Your task to perform on an android device: What's the latest video from GameSpot eSports? Image 0: 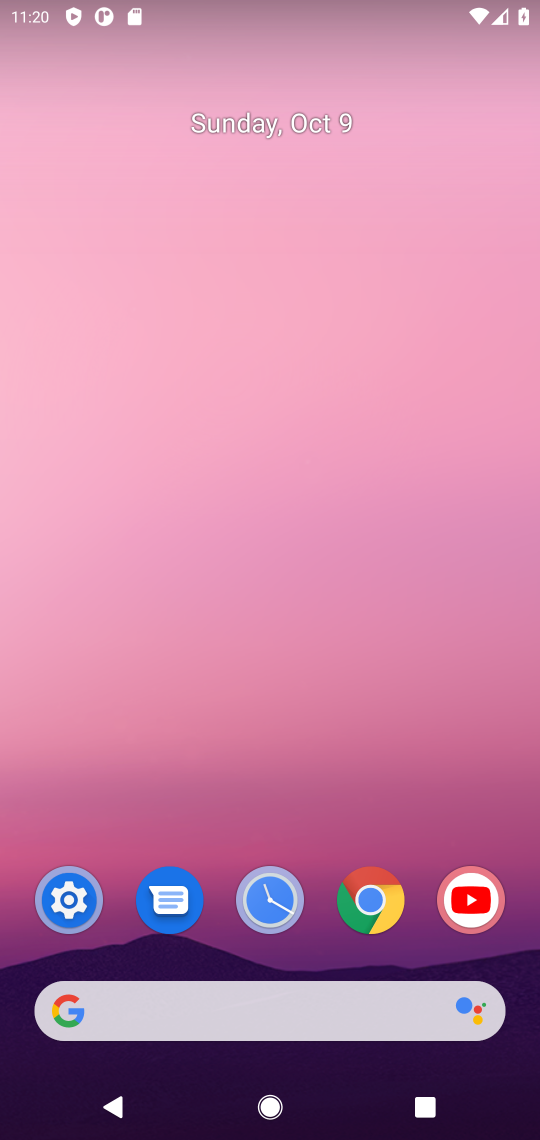
Step 0: click (279, 1007)
Your task to perform on an android device: What's the latest video from GameSpot eSports? Image 1: 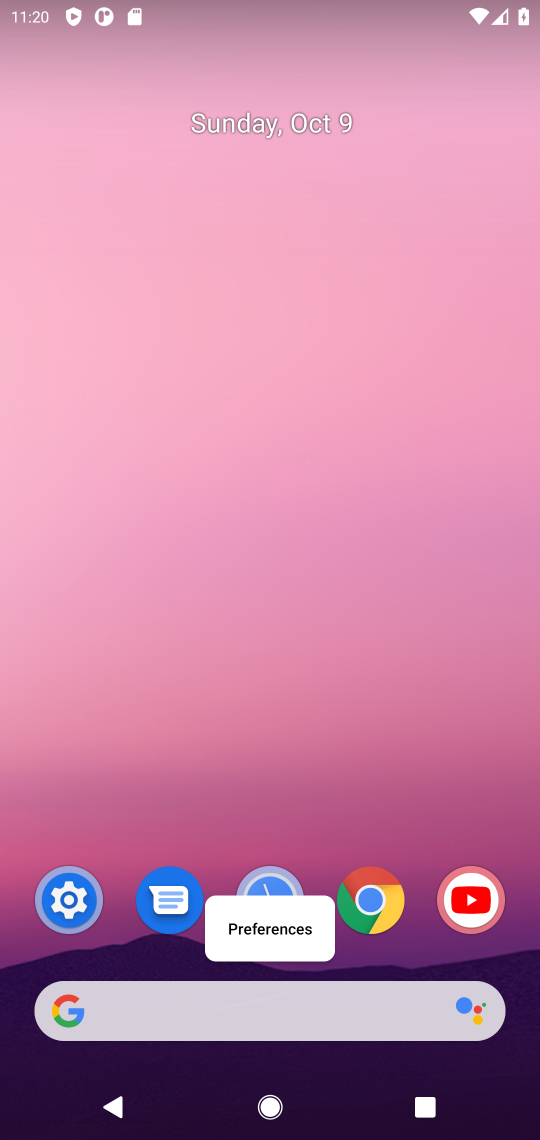
Step 1: click (150, 1015)
Your task to perform on an android device: What's the latest video from GameSpot eSports? Image 2: 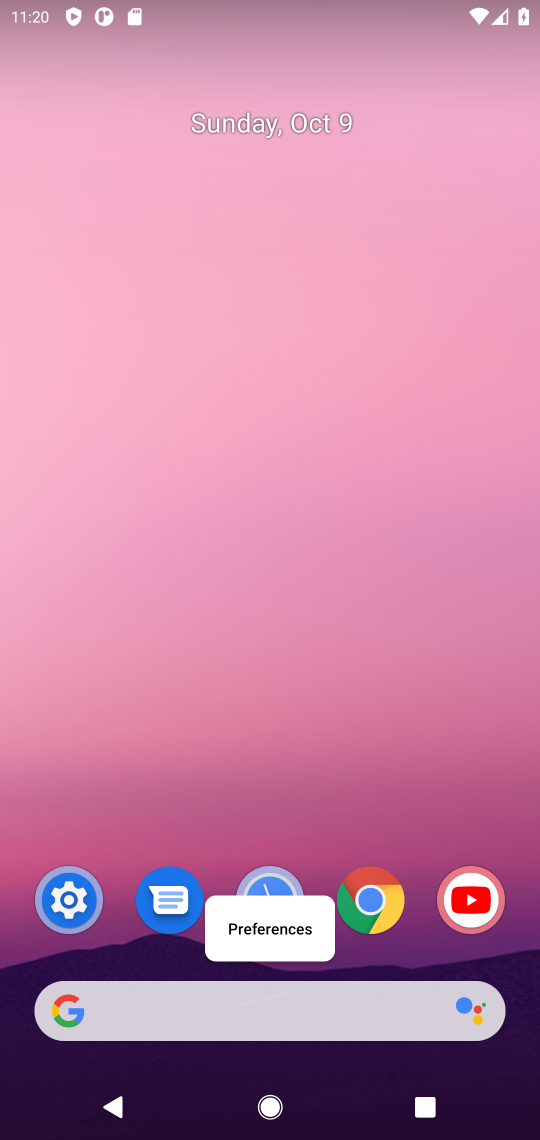
Step 2: click (134, 991)
Your task to perform on an android device: What's the latest video from GameSpot eSports? Image 3: 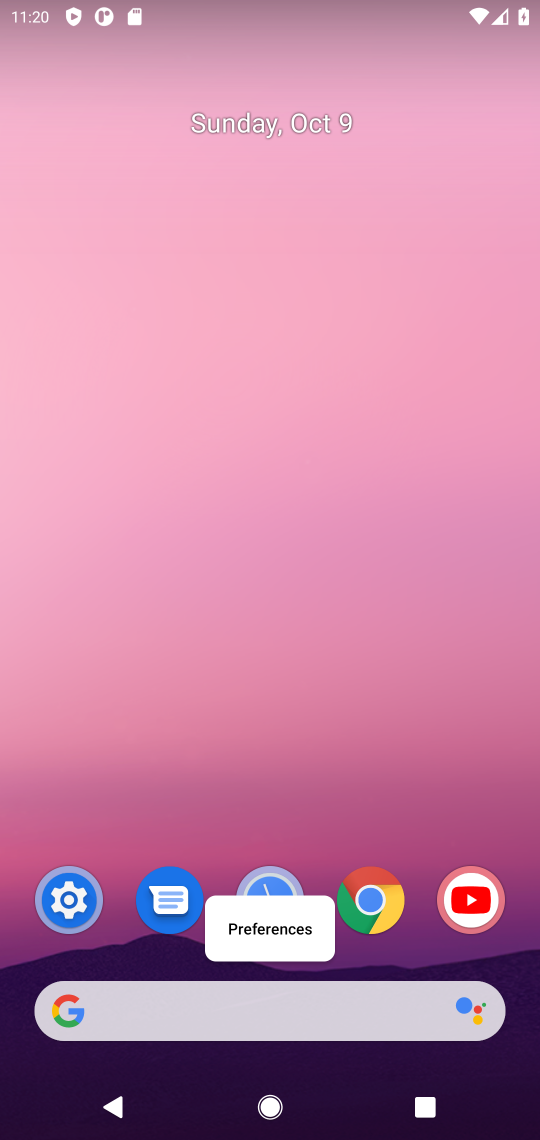
Step 3: click (383, 901)
Your task to perform on an android device: What's the latest video from GameSpot eSports? Image 4: 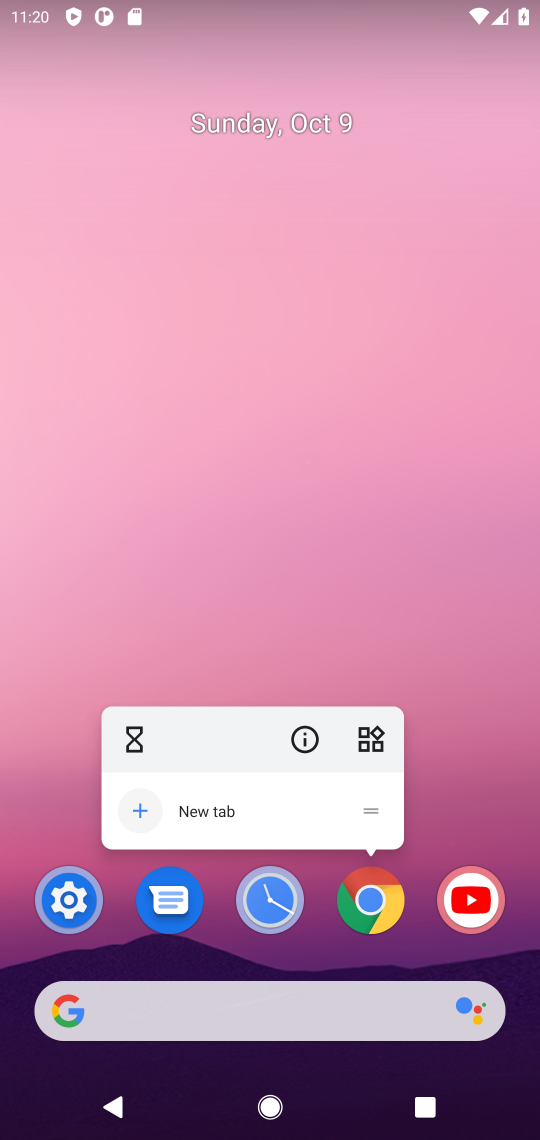
Step 4: click (486, 491)
Your task to perform on an android device: What's the latest video from GameSpot eSports? Image 5: 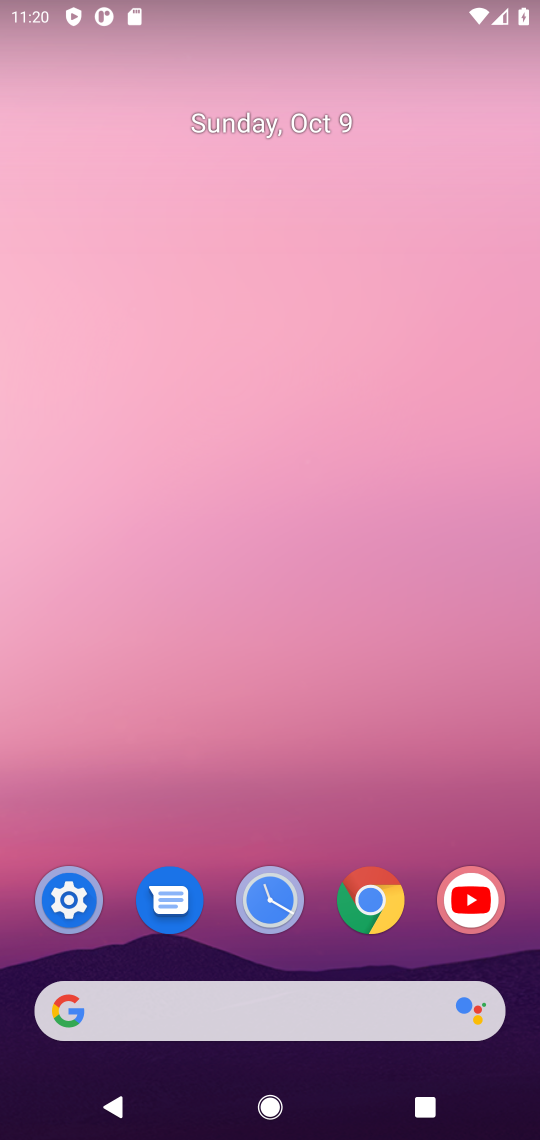
Step 5: click (362, 928)
Your task to perform on an android device: What's the latest video from GameSpot eSports? Image 6: 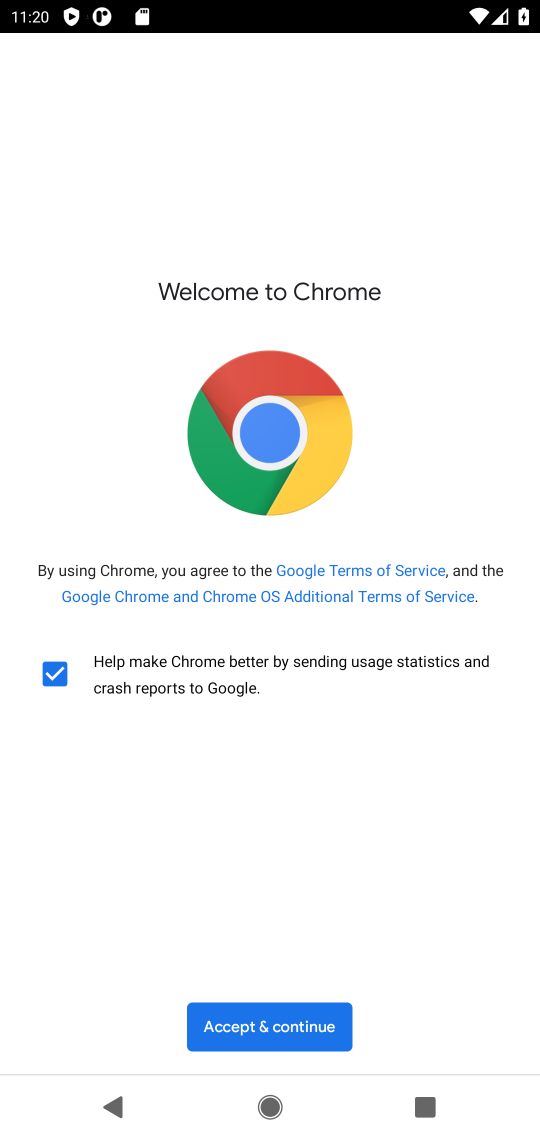
Step 6: click (284, 1018)
Your task to perform on an android device: What's the latest video from GameSpot eSports? Image 7: 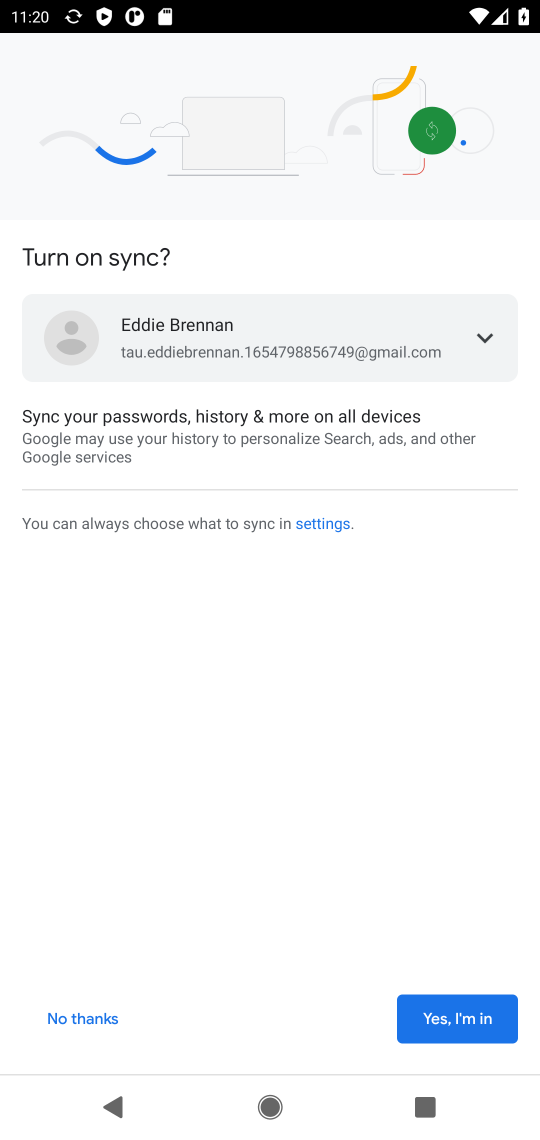
Step 7: click (449, 1012)
Your task to perform on an android device: What's the latest video from GameSpot eSports? Image 8: 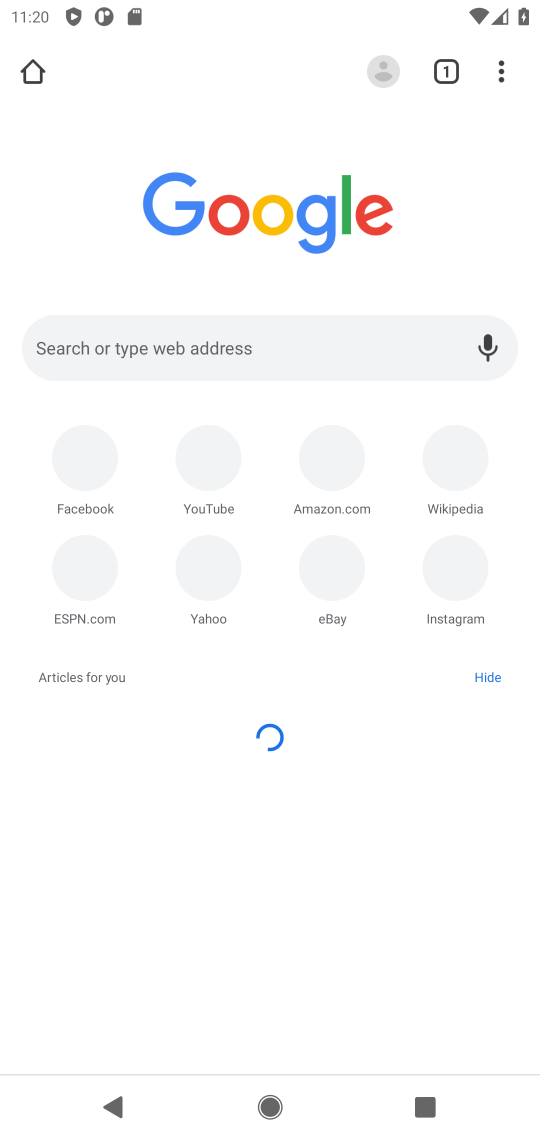
Step 8: click (297, 330)
Your task to perform on an android device: What's the latest video from GameSpot eSports? Image 9: 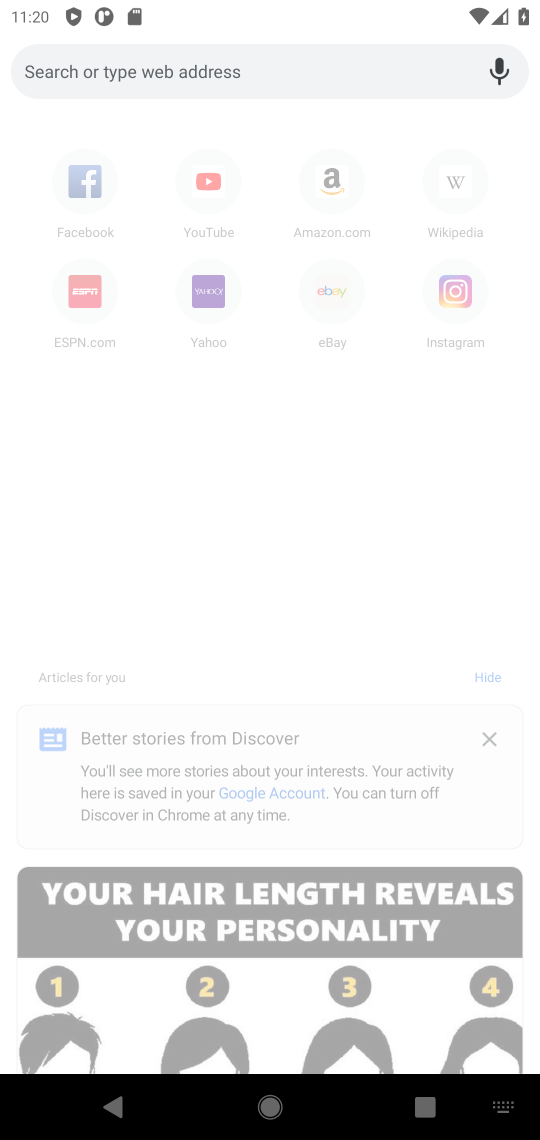
Step 9: type "What's the latest video from GameSpot eSports?"
Your task to perform on an android device: What's the latest video from GameSpot eSports? Image 10: 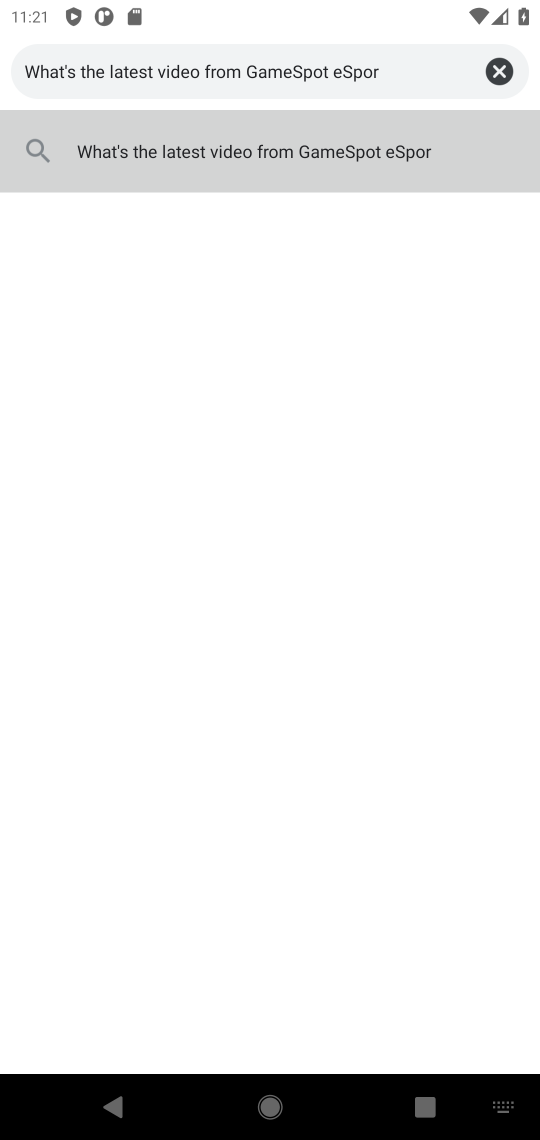
Step 10: type ""
Your task to perform on an android device: What's the latest video from GameSpot eSports? Image 11: 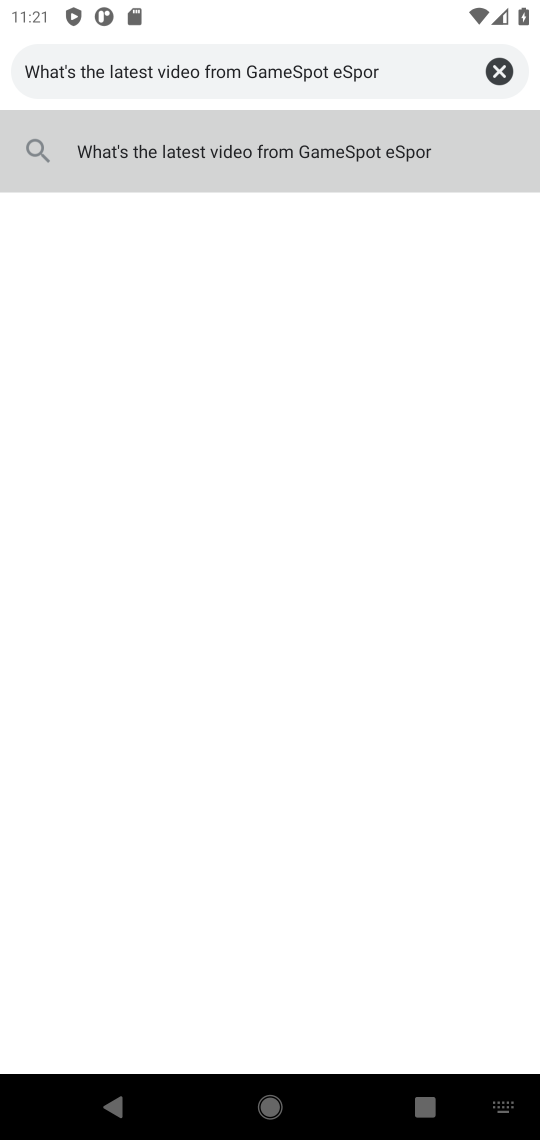
Step 11: click (426, 172)
Your task to perform on an android device: What's the latest video from GameSpot eSports? Image 12: 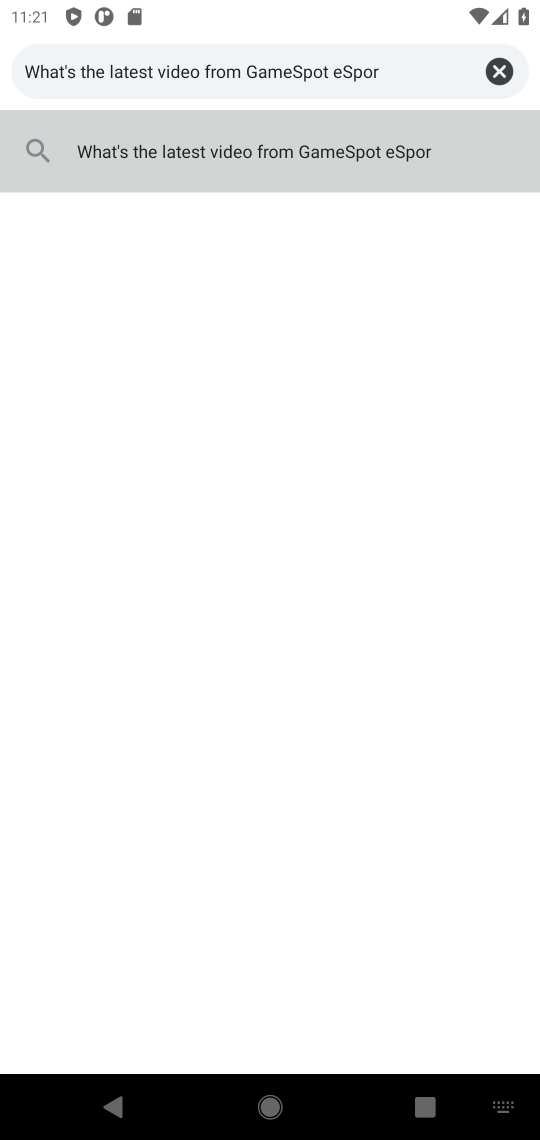
Step 12: click (409, 149)
Your task to perform on an android device: What's the latest video from GameSpot eSports? Image 13: 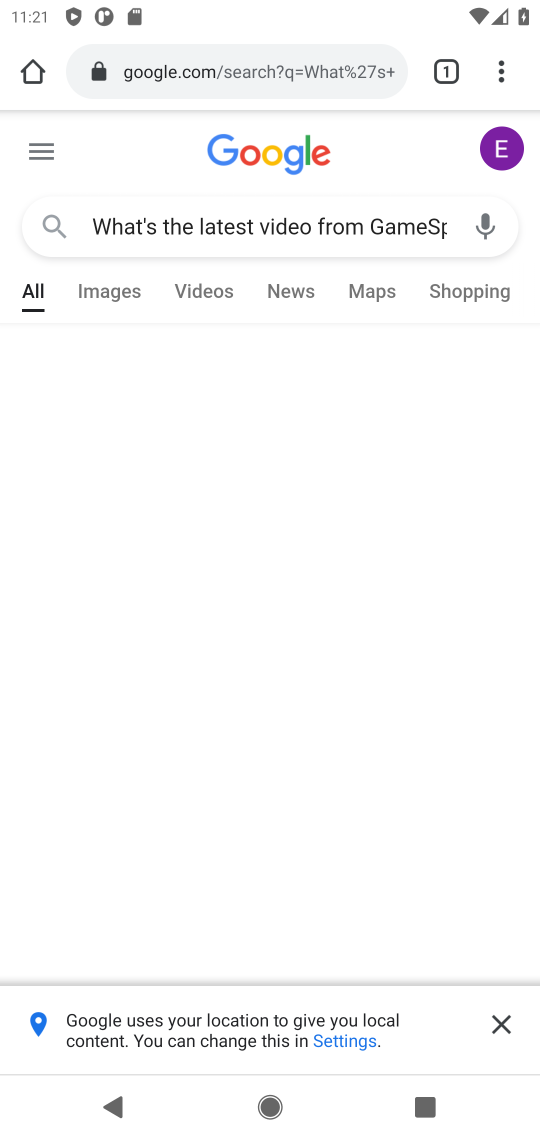
Step 13: click (498, 1013)
Your task to perform on an android device: What's the latest video from GameSpot eSports? Image 14: 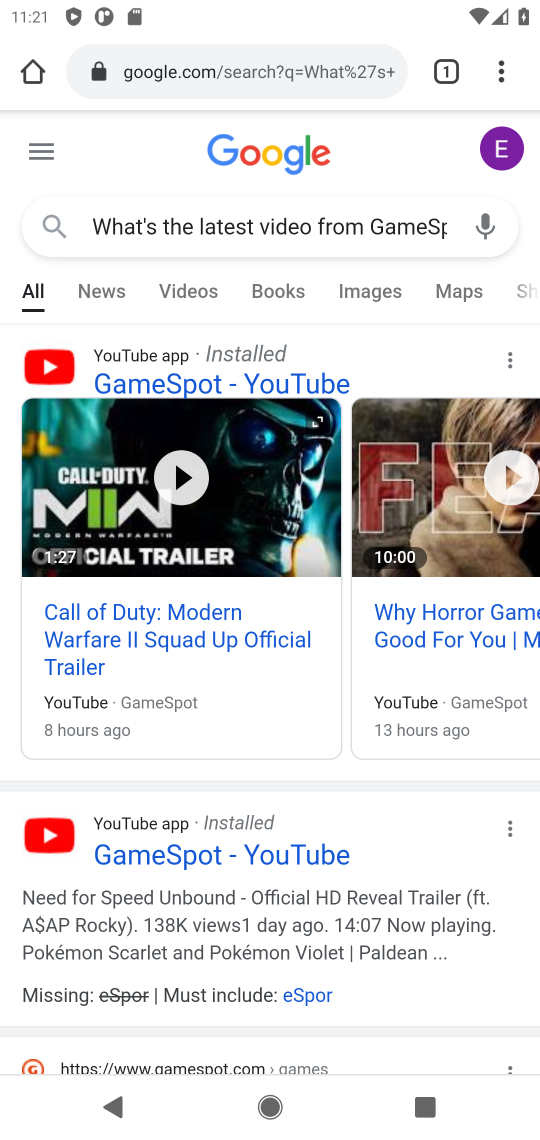
Step 14: click (177, 621)
Your task to perform on an android device: What's the latest video from GameSpot eSports? Image 15: 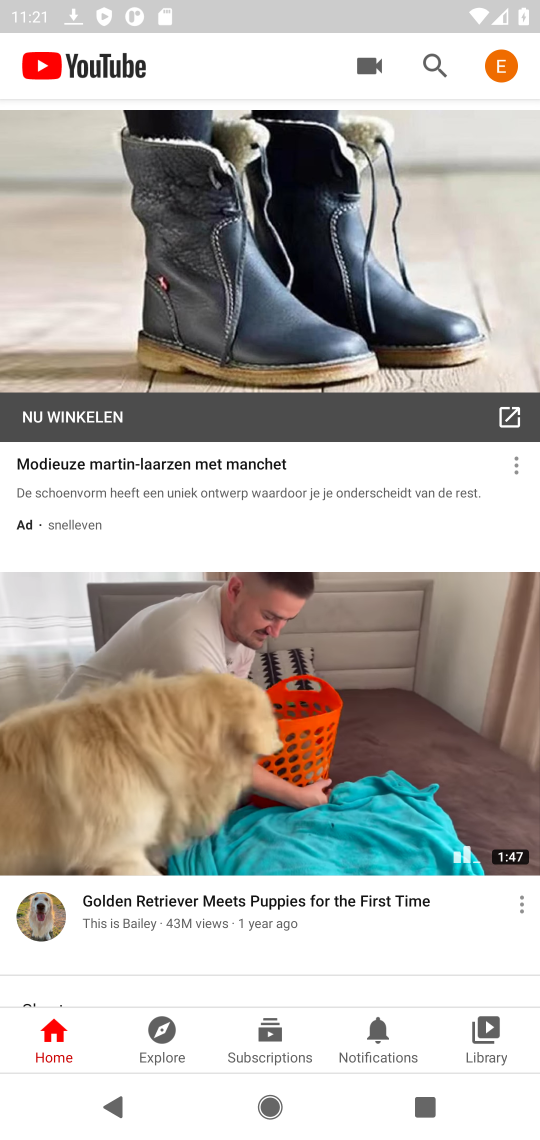
Step 15: press back button
Your task to perform on an android device: What's the latest video from GameSpot eSports? Image 16: 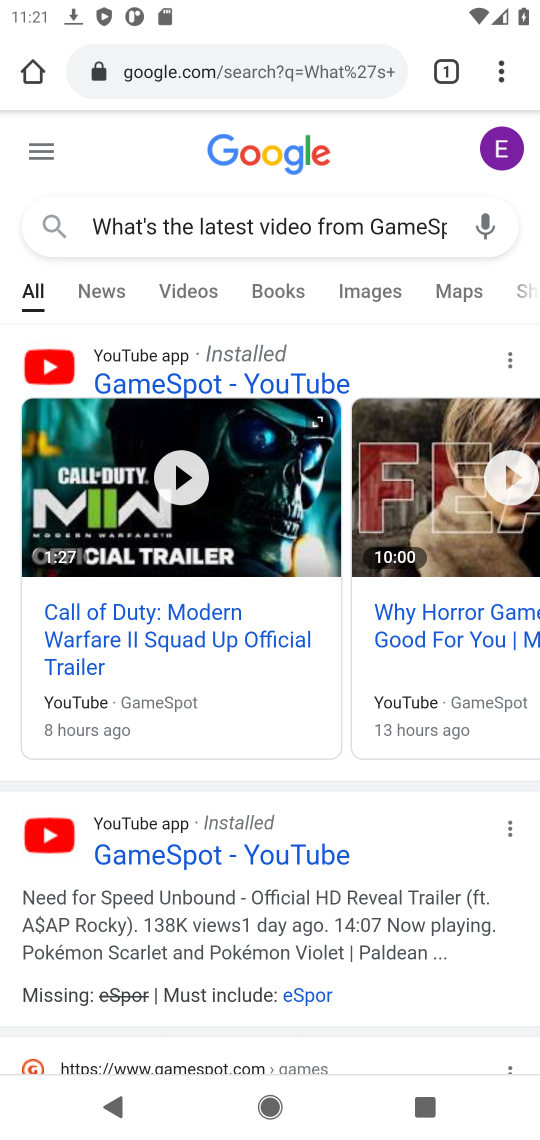
Step 16: click (212, 851)
Your task to perform on an android device: What's the latest video from GameSpot eSports? Image 17: 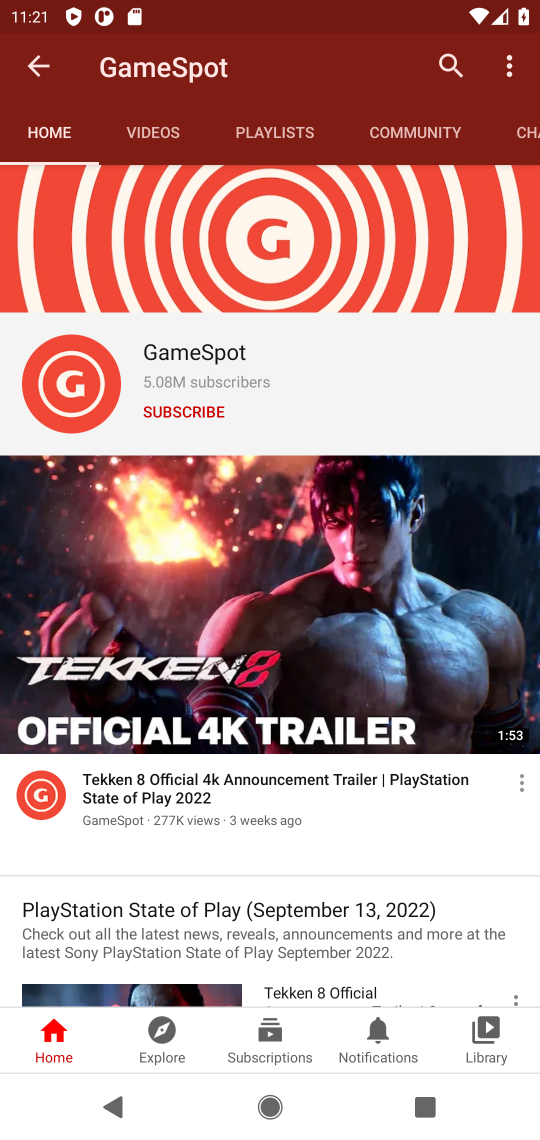
Step 17: drag from (309, 708) to (360, 443)
Your task to perform on an android device: What's the latest video from GameSpot eSports? Image 18: 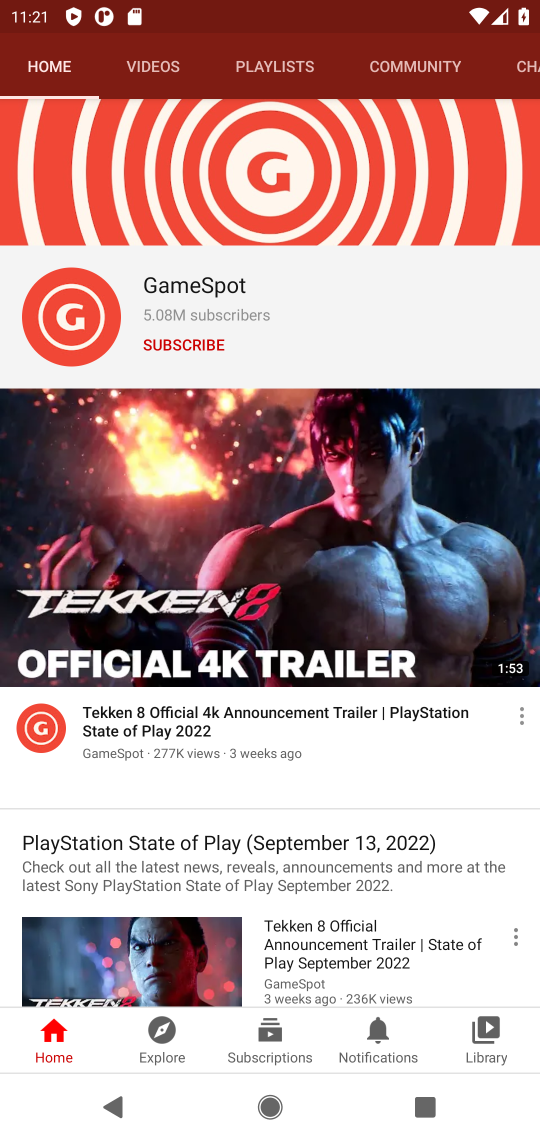
Step 18: drag from (394, 760) to (460, 307)
Your task to perform on an android device: What's the latest video from GameSpot eSports? Image 19: 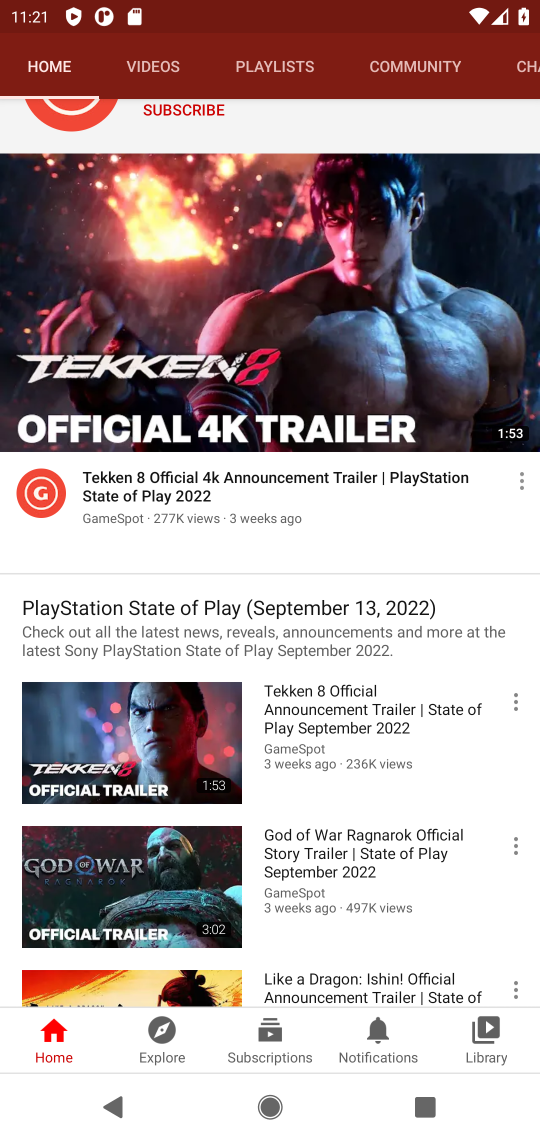
Step 19: click (159, 61)
Your task to perform on an android device: What's the latest video from GameSpot eSports? Image 20: 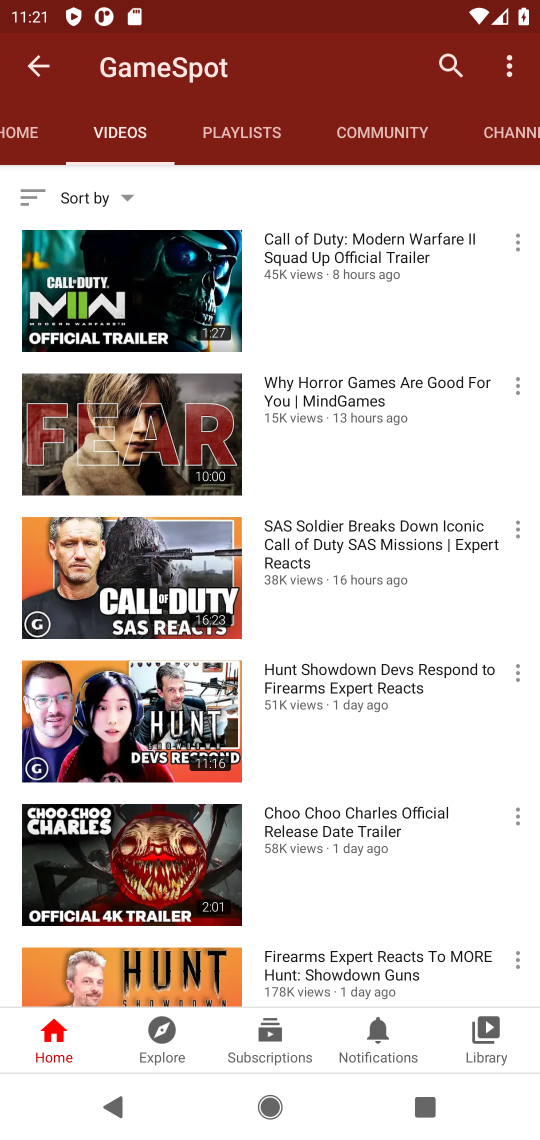
Step 20: click (297, 206)
Your task to perform on an android device: What's the latest video from GameSpot eSports? Image 21: 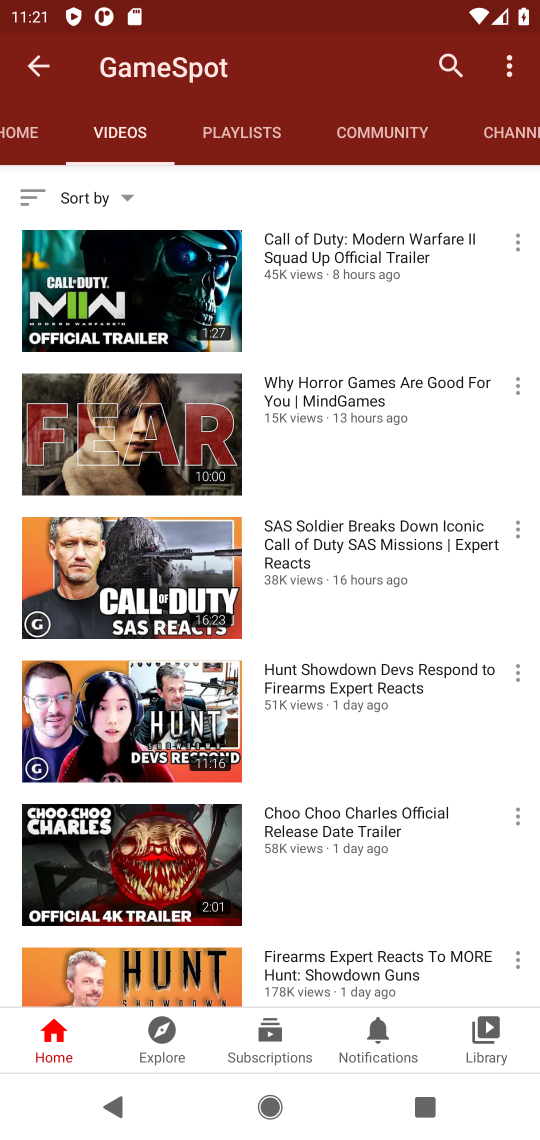
Step 21: click (223, 282)
Your task to perform on an android device: What's the latest video from GameSpot eSports? Image 22: 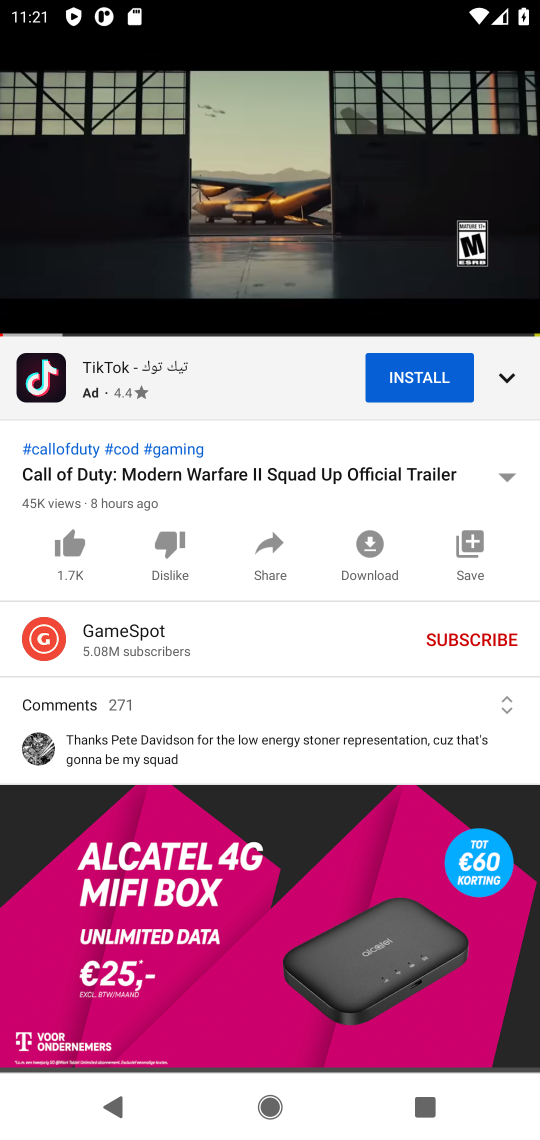
Step 22: click (511, 379)
Your task to perform on an android device: What's the latest video from GameSpot eSports? Image 23: 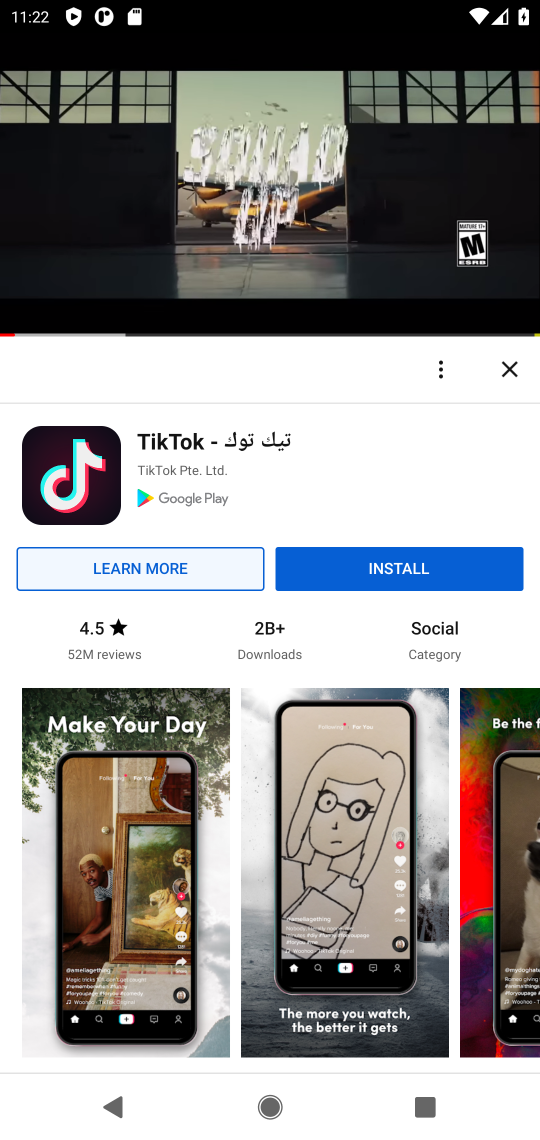
Step 23: click (511, 373)
Your task to perform on an android device: What's the latest video from GameSpot eSports? Image 24: 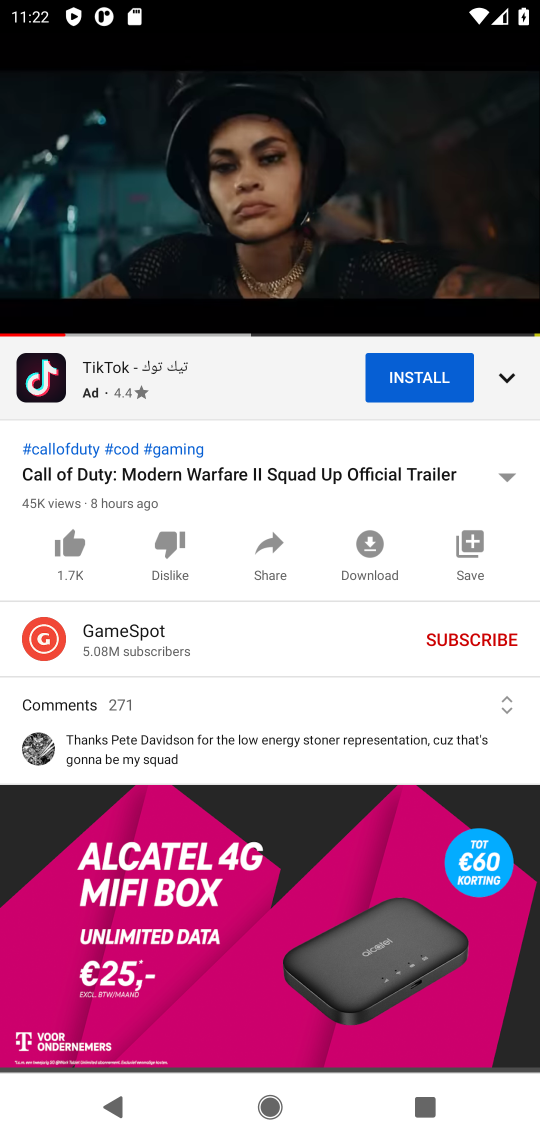
Step 24: drag from (308, 836) to (253, 441)
Your task to perform on an android device: What's the latest video from GameSpot eSports? Image 25: 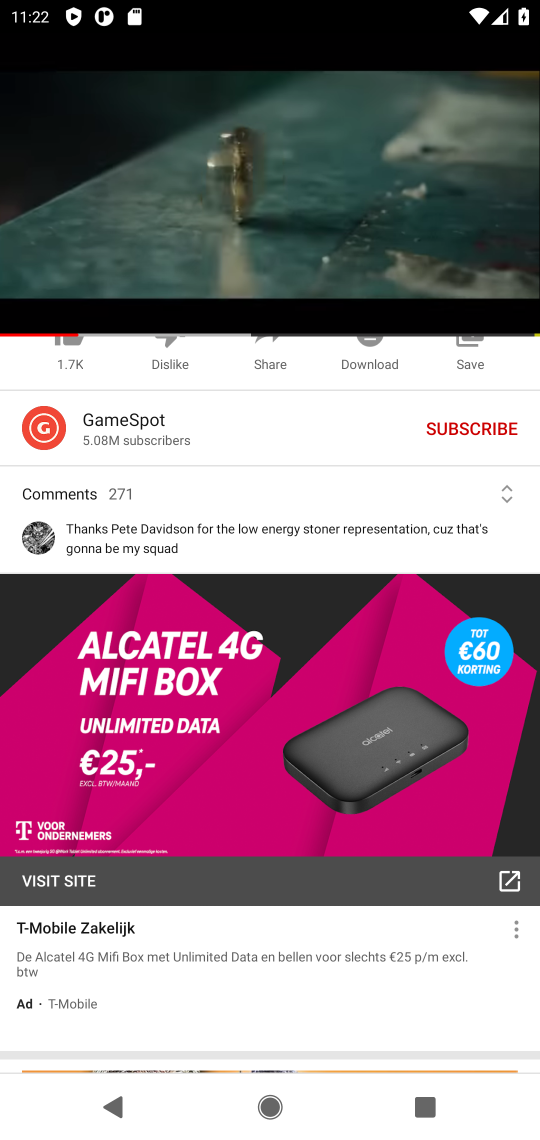
Step 25: drag from (311, 779) to (337, 477)
Your task to perform on an android device: What's the latest video from GameSpot eSports? Image 26: 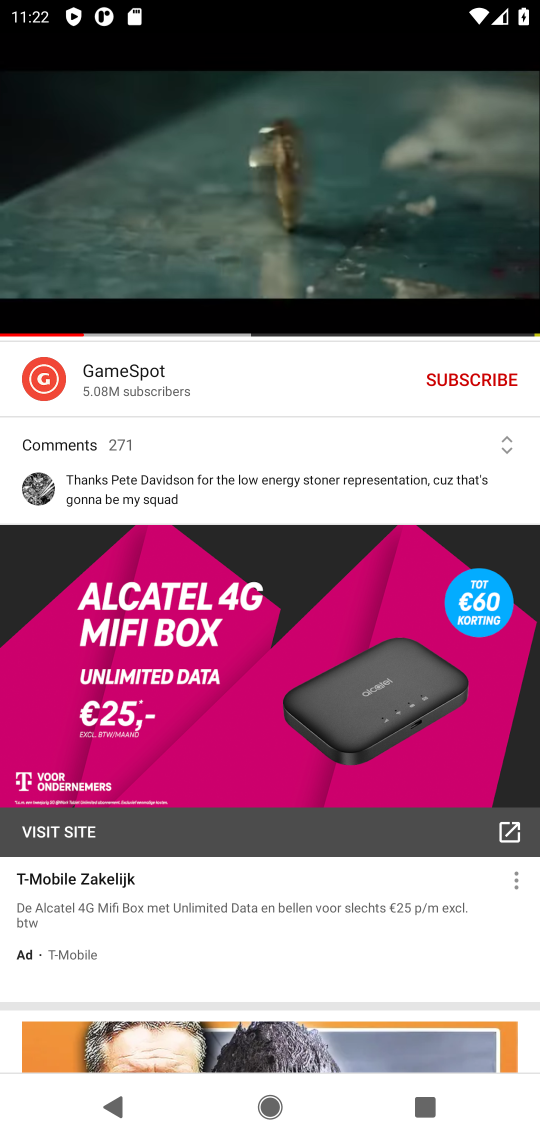
Step 26: drag from (399, 863) to (405, 570)
Your task to perform on an android device: What's the latest video from GameSpot eSports? Image 27: 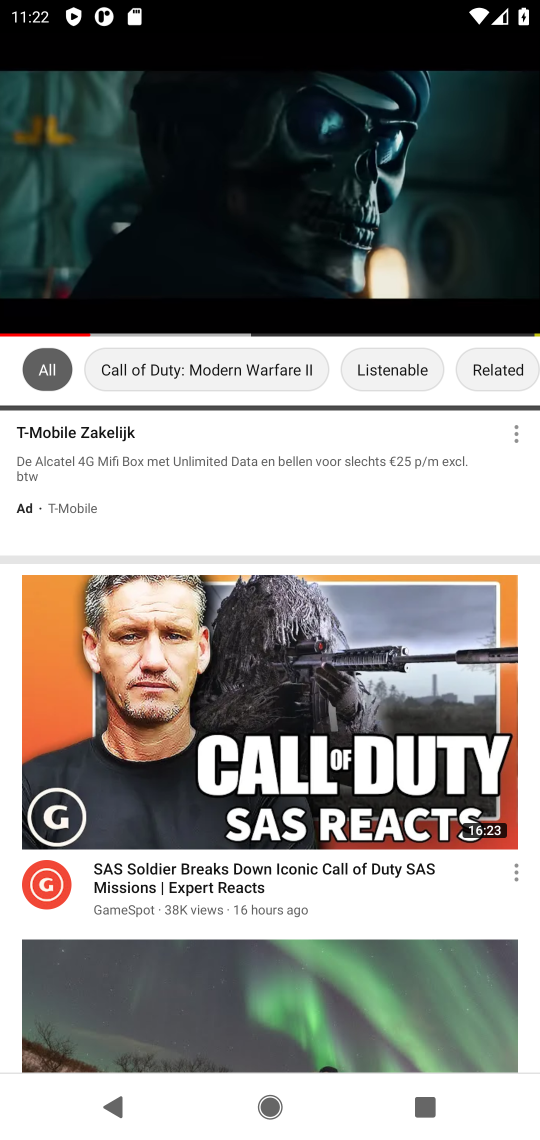
Step 27: drag from (412, 870) to (439, 591)
Your task to perform on an android device: What's the latest video from GameSpot eSports? Image 28: 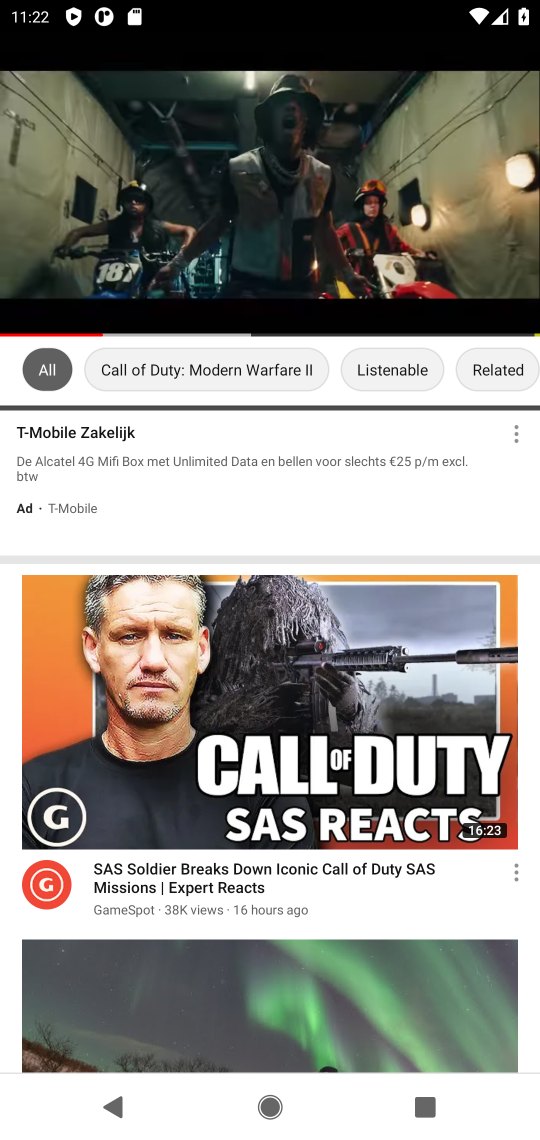
Step 28: drag from (377, 910) to (413, 569)
Your task to perform on an android device: What's the latest video from GameSpot eSports? Image 29: 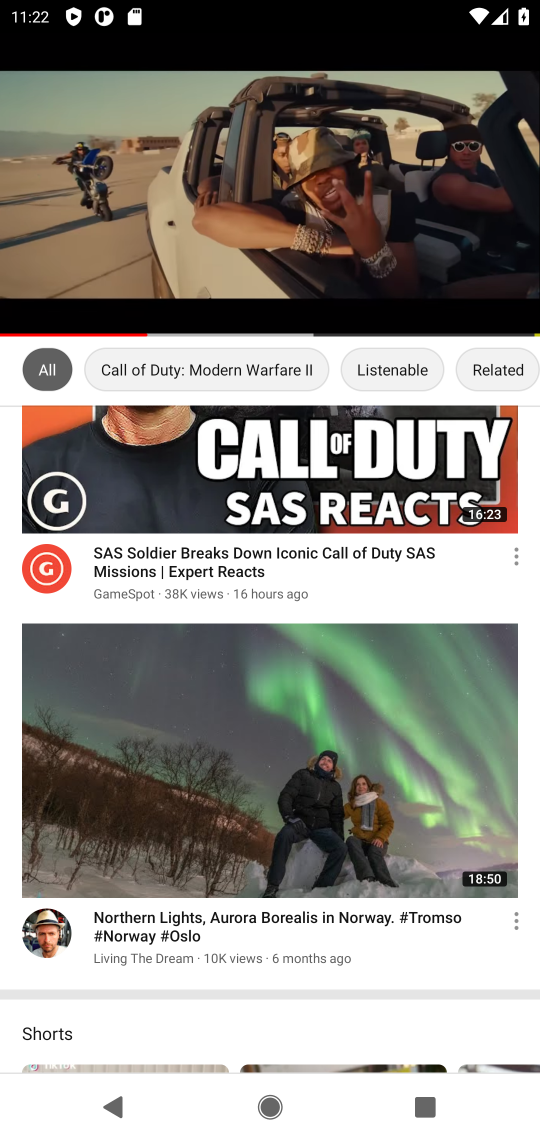
Step 29: drag from (412, 574) to (425, 348)
Your task to perform on an android device: What's the latest video from GameSpot eSports? Image 30: 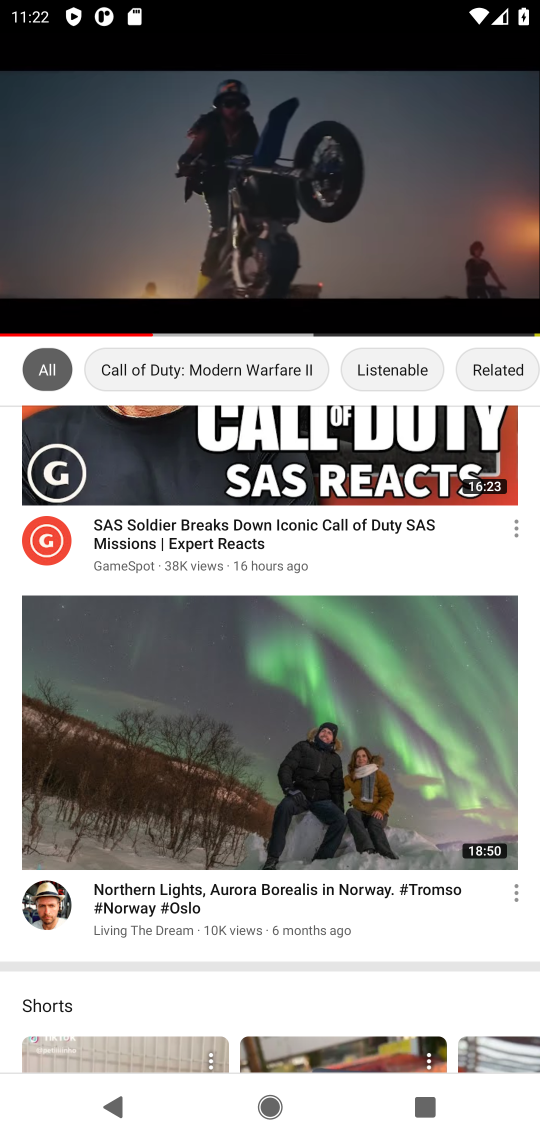
Step 30: drag from (387, 742) to (408, 331)
Your task to perform on an android device: What's the latest video from GameSpot eSports? Image 31: 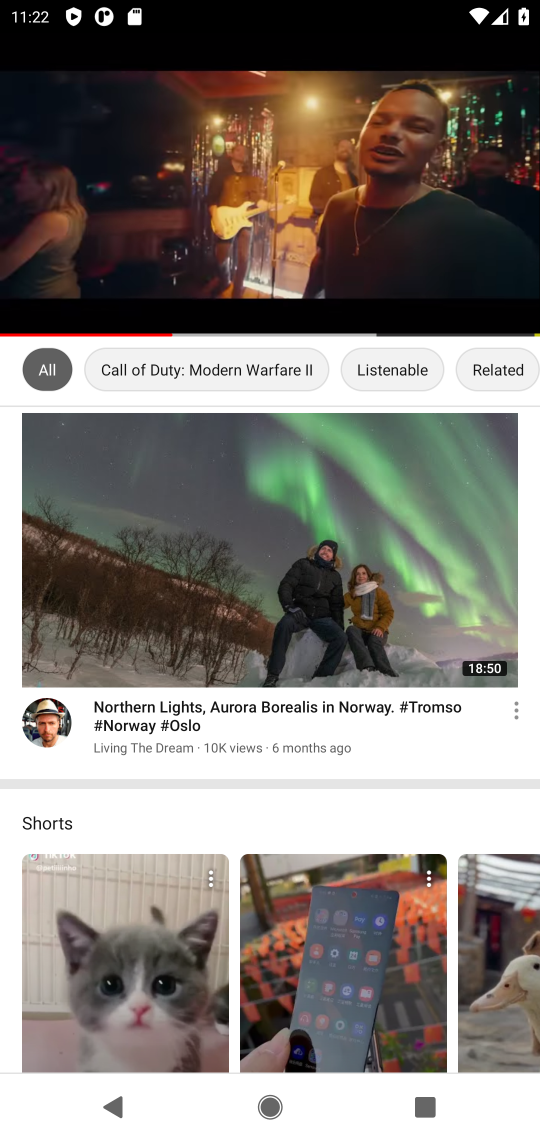
Step 31: drag from (336, 793) to (309, 280)
Your task to perform on an android device: What's the latest video from GameSpot eSports? Image 32: 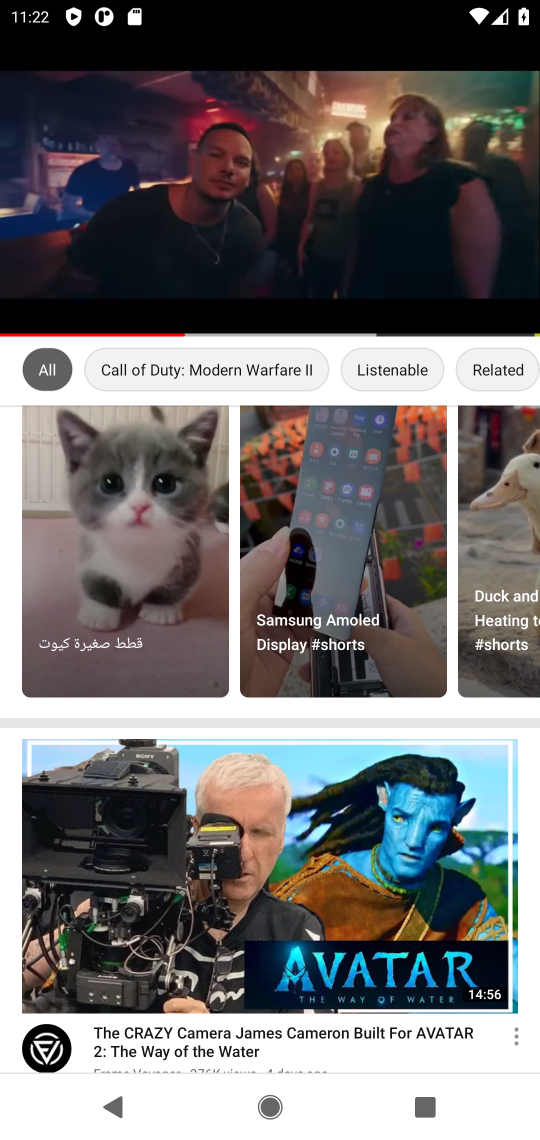
Step 32: drag from (358, 618) to (361, 367)
Your task to perform on an android device: What's the latest video from GameSpot eSports? Image 33: 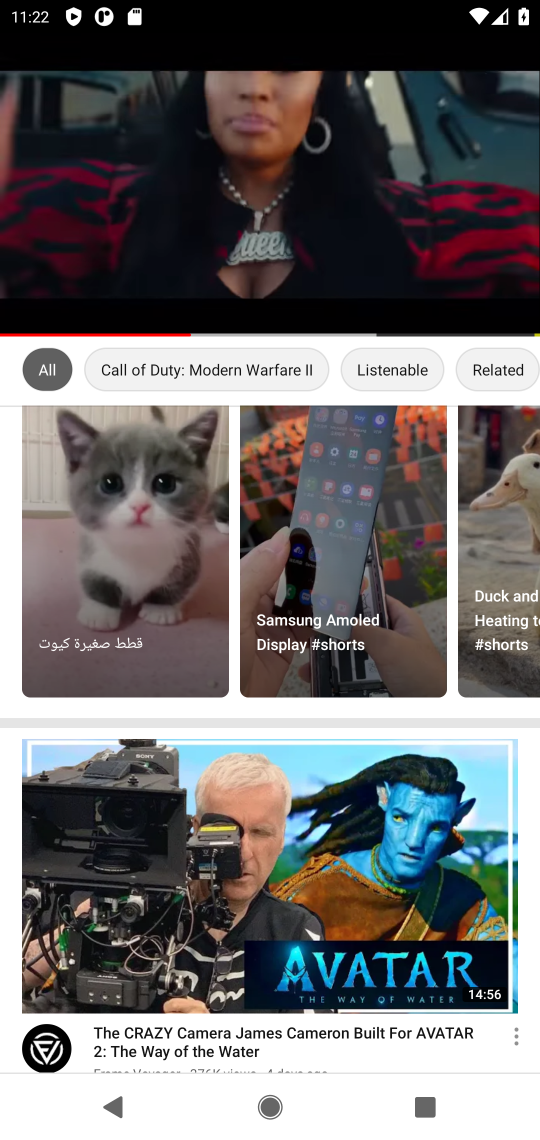
Step 33: drag from (369, 778) to (374, 446)
Your task to perform on an android device: What's the latest video from GameSpot eSports? Image 34: 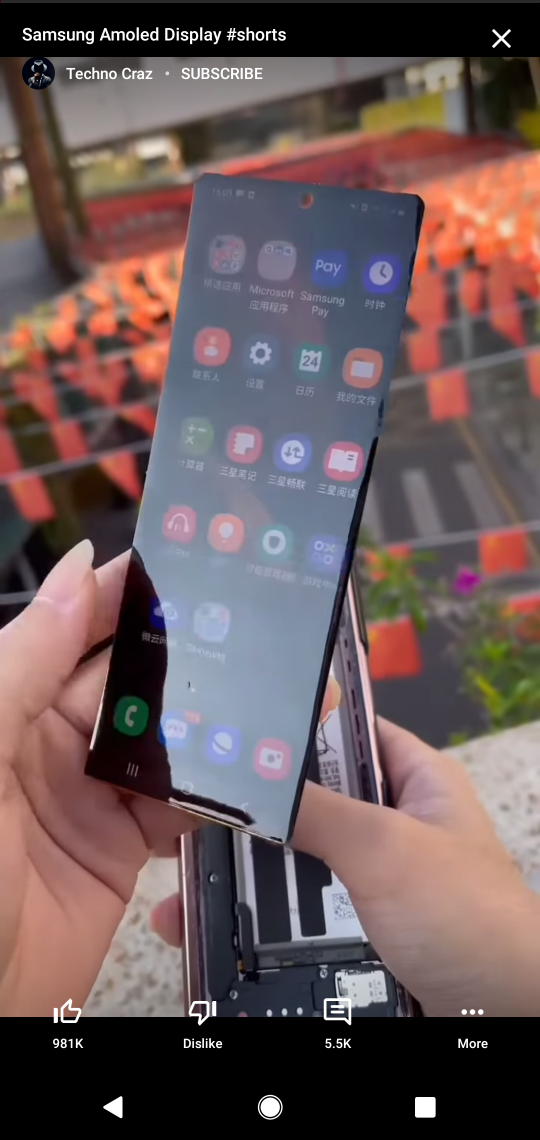
Step 34: drag from (350, 718) to (352, 289)
Your task to perform on an android device: What's the latest video from GameSpot eSports? Image 35: 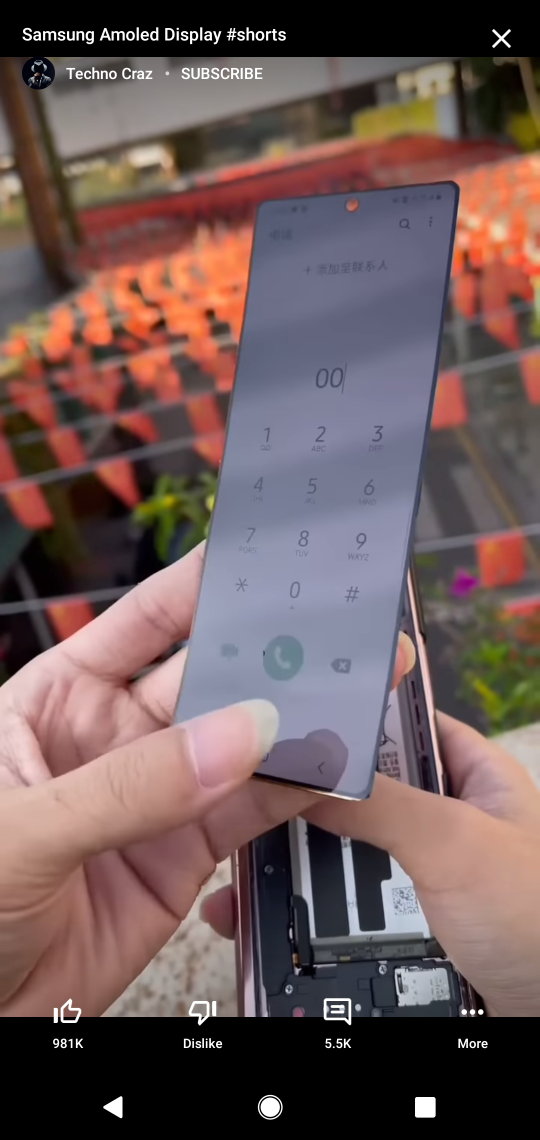
Step 35: drag from (424, 776) to (397, 268)
Your task to perform on an android device: What's the latest video from GameSpot eSports? Image 36: 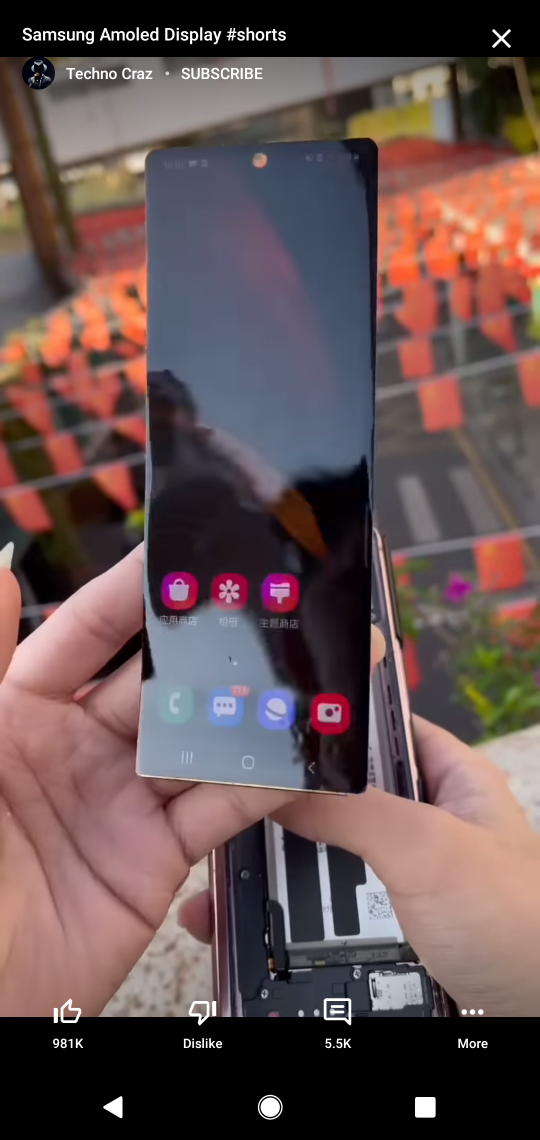
Step 36: drag from (433, 657) to (428, 271)
Your task to perform on an android device: What's the latest video from GameSpot eSports? Image 37: 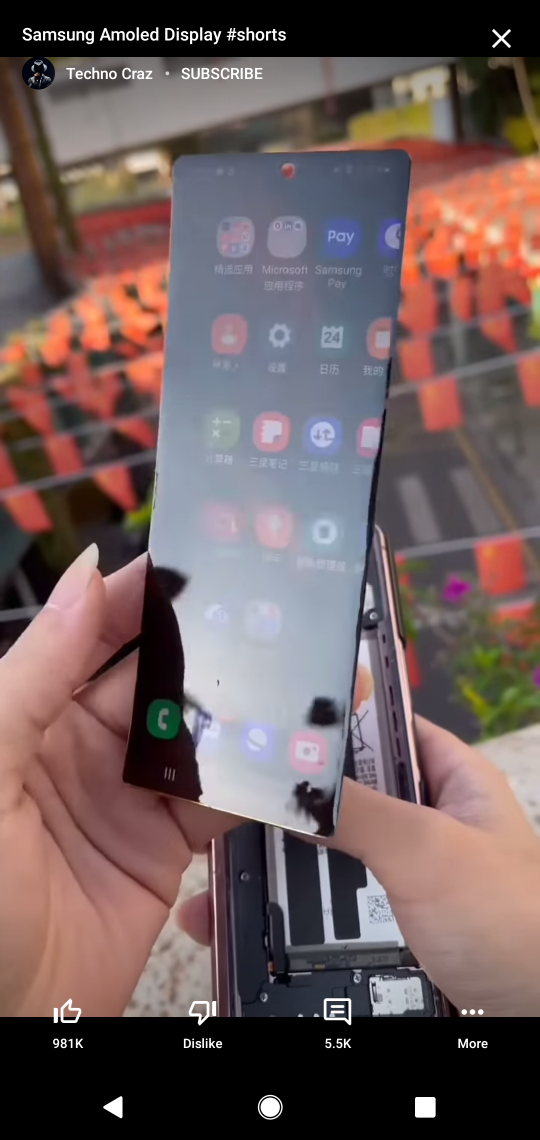
Step 37: drag from (389, 547) to (383, 133)
Your task to perform on an android device: What's the latest video from GameSpot eSports? Image 38: 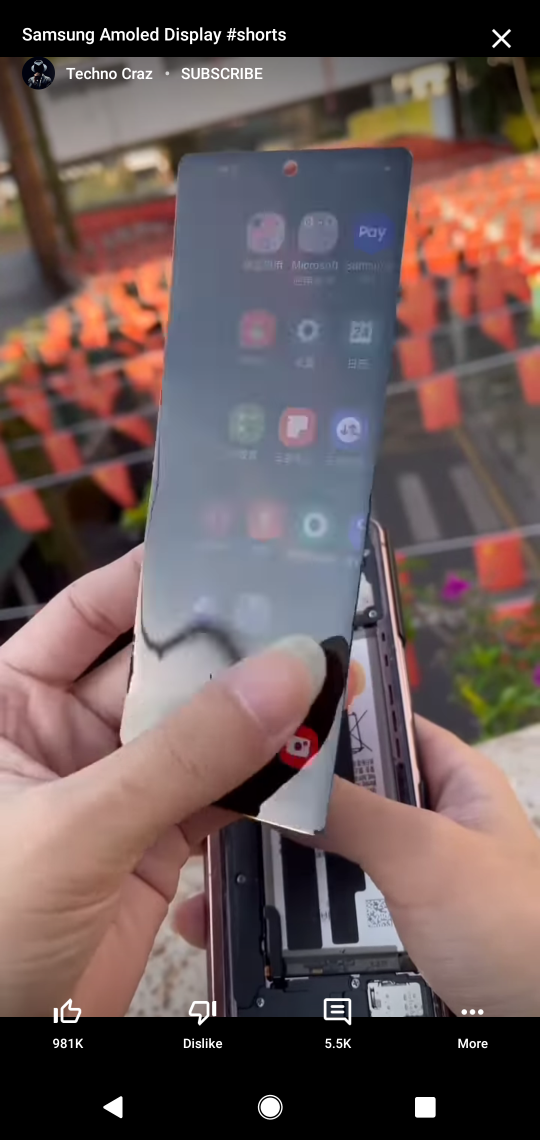
Step 38: drag from (400, 495) to (487, 190)
Your task to perform on an android device: What's the latest video from GameSpot eSports? Image 39: 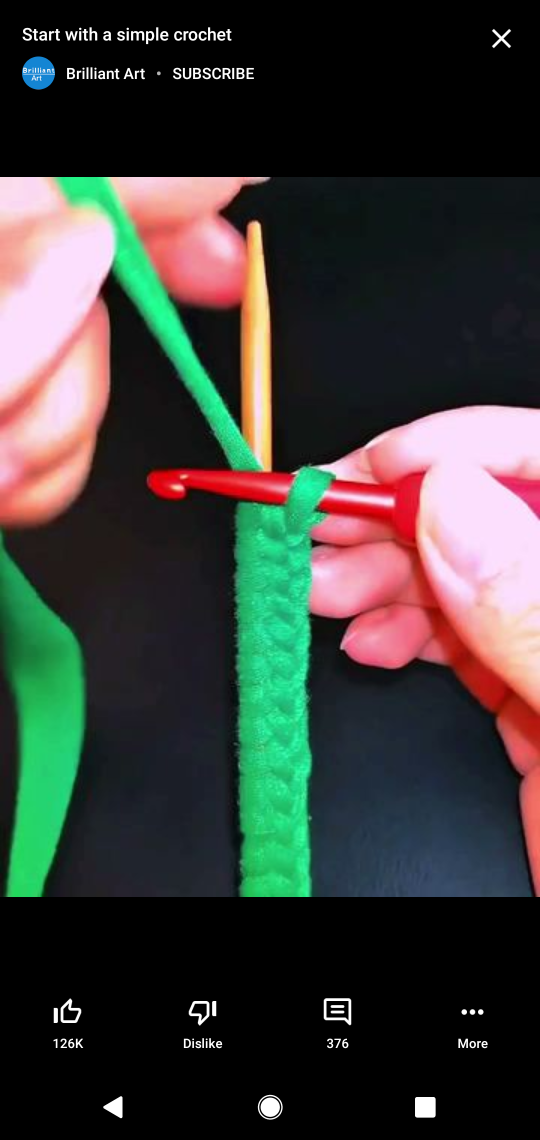
Step 39: click (453, 176)
Your task to perform on an android device: What's the latest video from GameSpot eSports? Image 40: 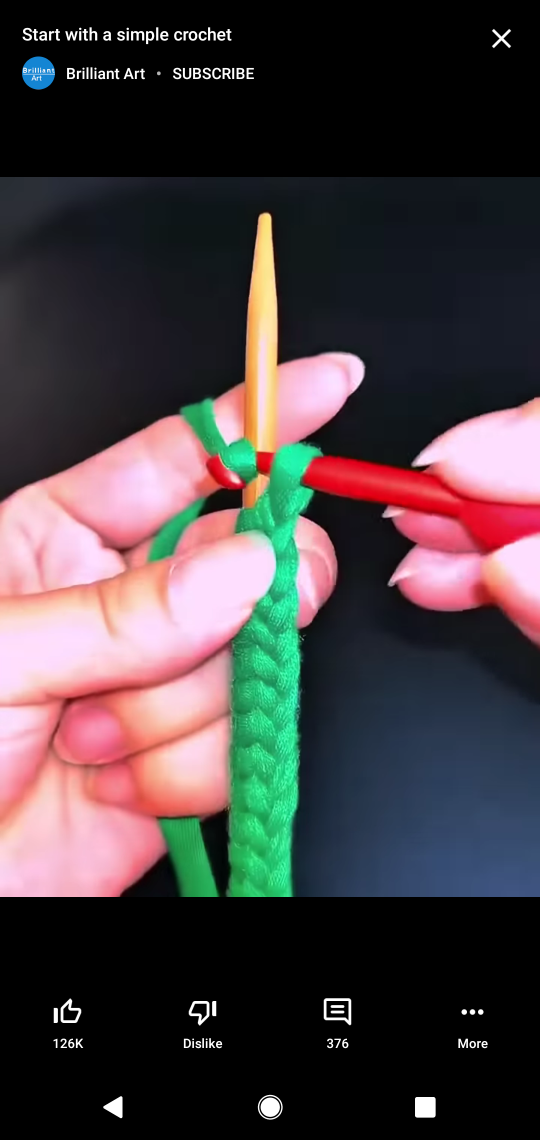
Step 40: drag from (503, 414) to (516, 107)
Your task to perform on an android device: What's the latest video from GameSpot eSports? Image 41: 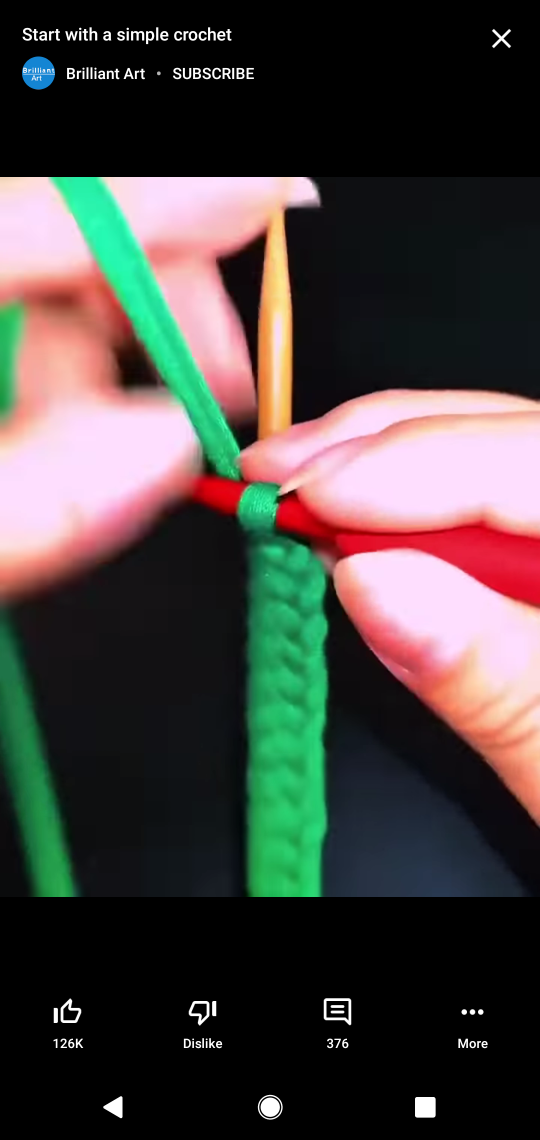
Step 41: drag from (389, 603) to (385, 203)
Your task to perform on an android device: What's the latest video from GameSpot eSports? Image 42: 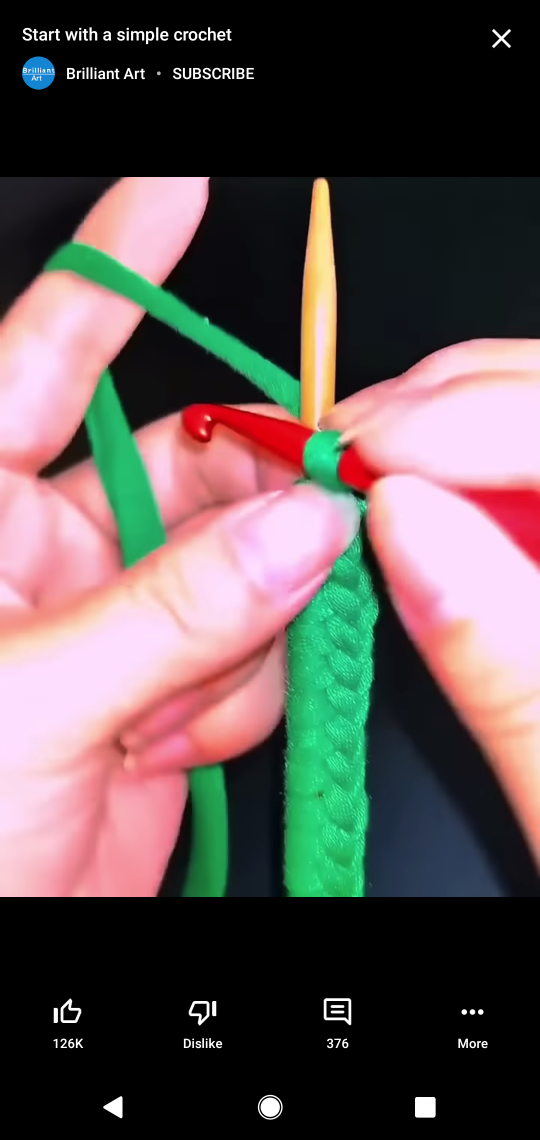
Step 42: drag from (446, 617) to (441, 170)
Your task to perform on an android device: What's the latest video from GameSpot eSports? Image 43: 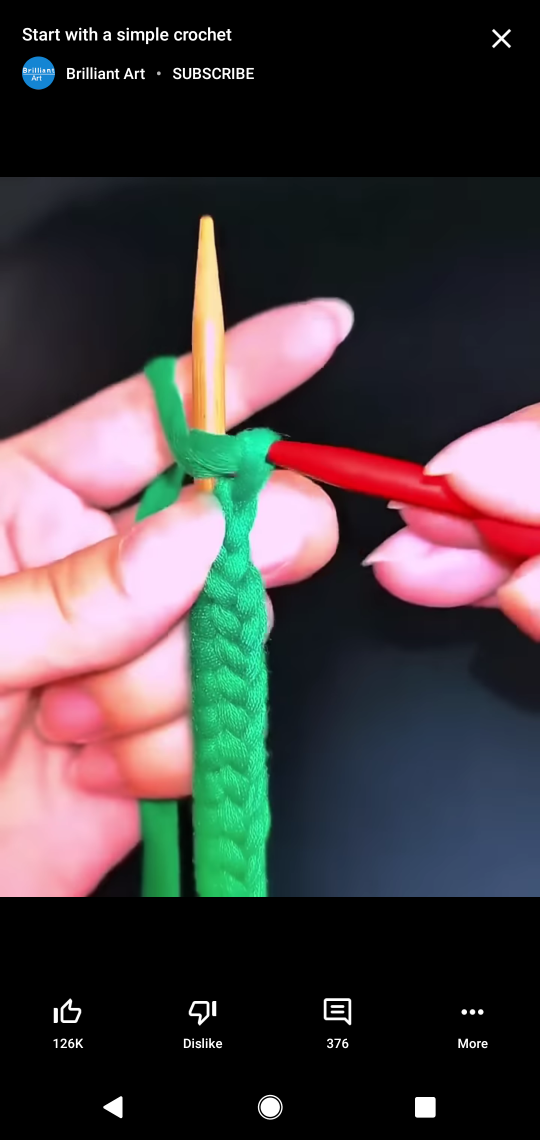
Step 43: drag from (375, 550) to (377, 218)
Your task to perform on an android device: What's the latest video from GameSpot eSports? Image 44: 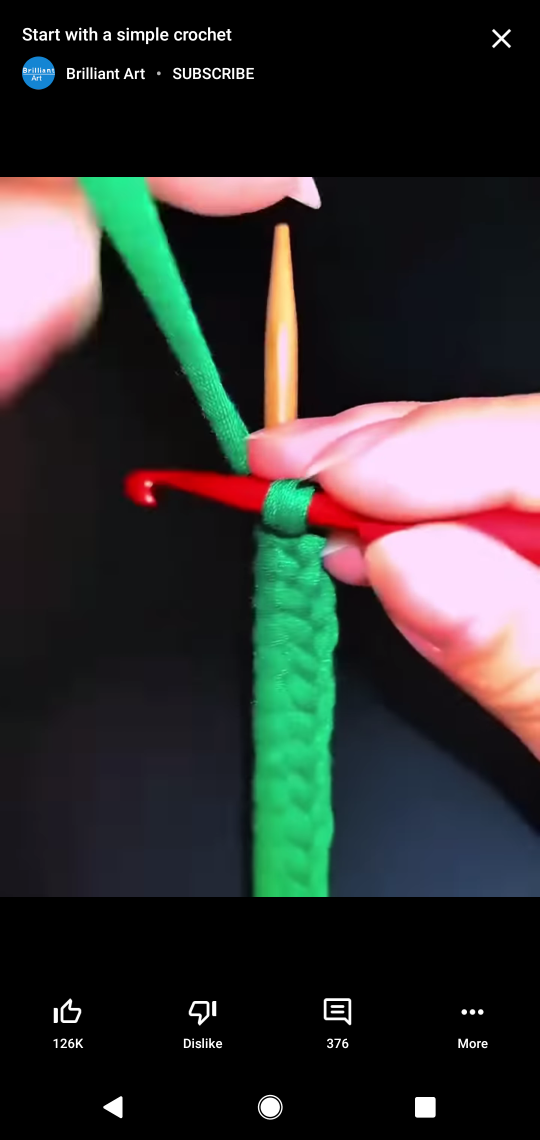
Step 44: drag from (469, 678) to (429, 242)
Your task to perform on an android device: What's the latest video from GameSpot eSports? Image 45: 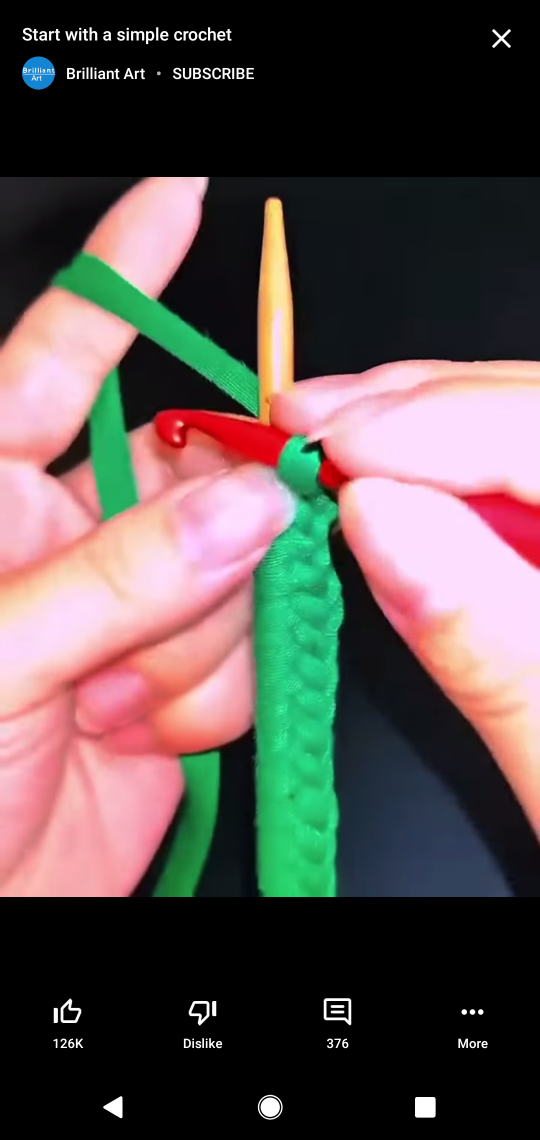
Step 45: drag from (338, 700) to (331, 376)
Your task to perform on an android device: What's the latest video from GameSpot eSports? Image 46: 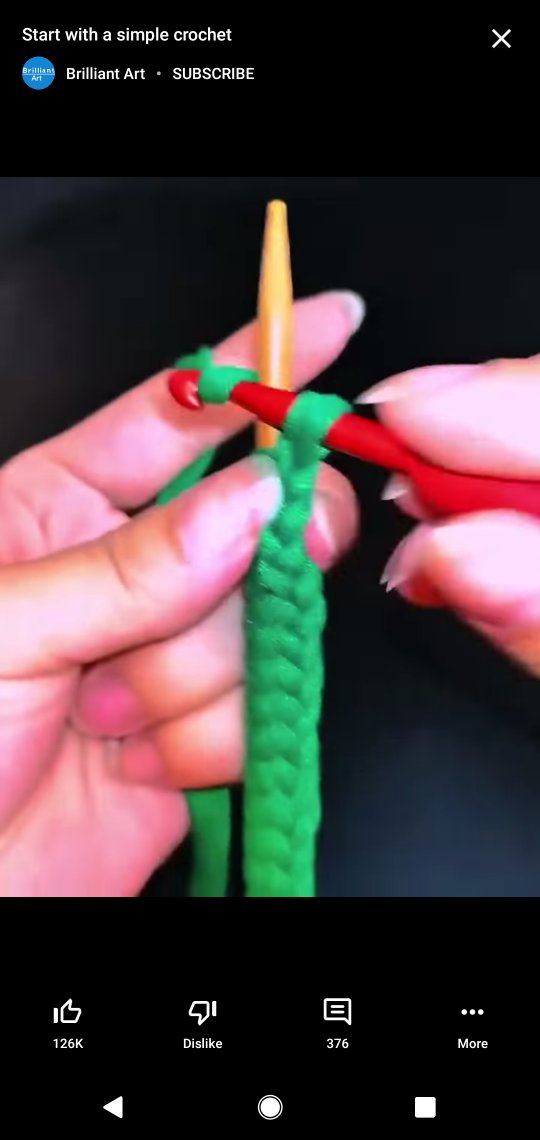
Step 46: drag from (305, 655) to (337, 392)
Your task to perform on an android device: What's the latest video from GameSpot eSports? Image 47: 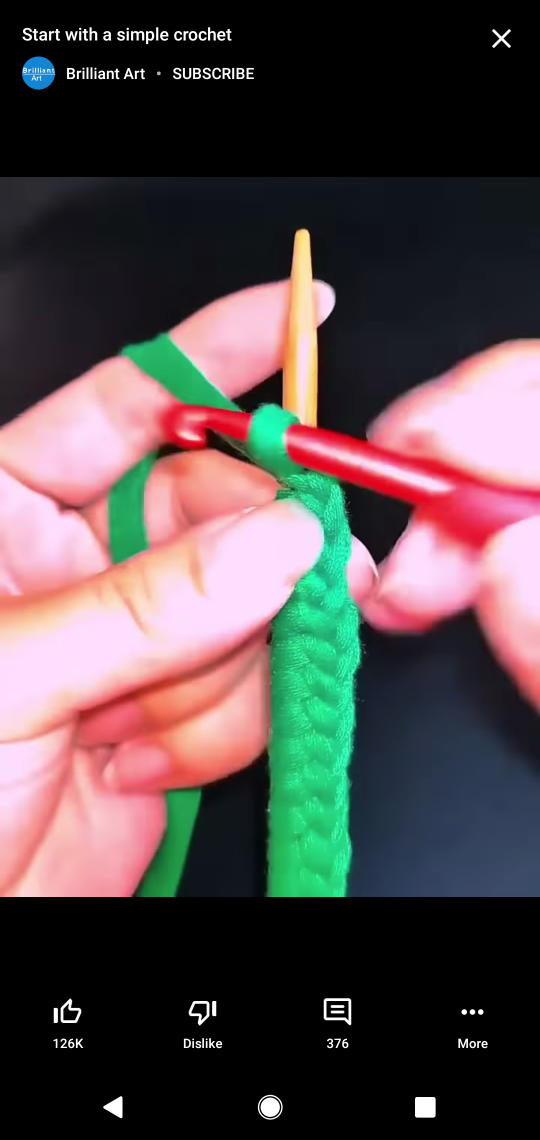
Step 47: drag from (359, 784) to (389, 292)
Your task to perform on an android device: What's the latest video from GameSpot eSports? Image 48: 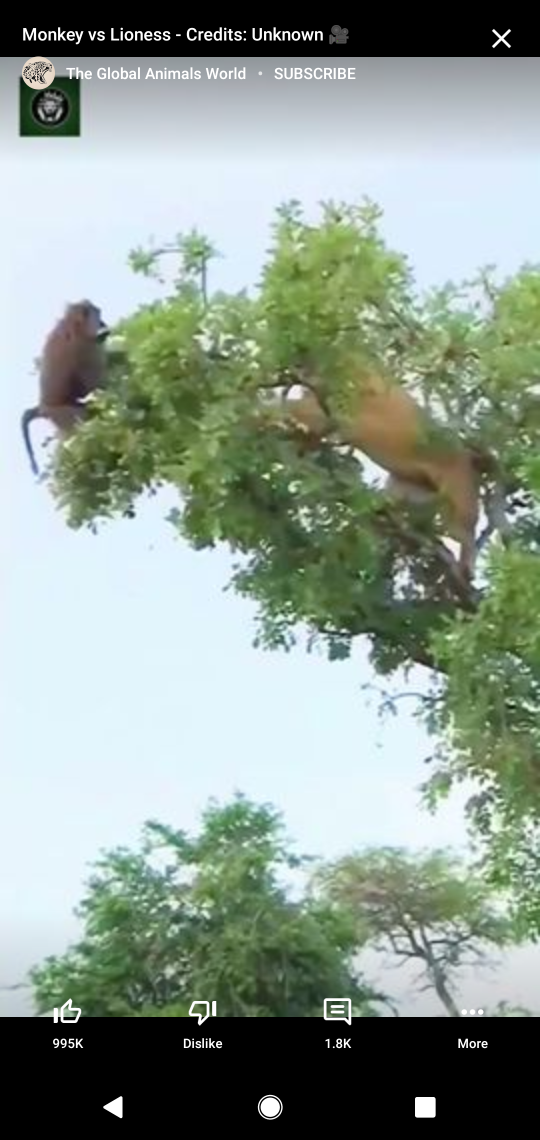
Step 48: drag from (438, 644) to (427, 177)
Your task to perform on an android device: What's the latest video from GameSpot eSports? Image 49: 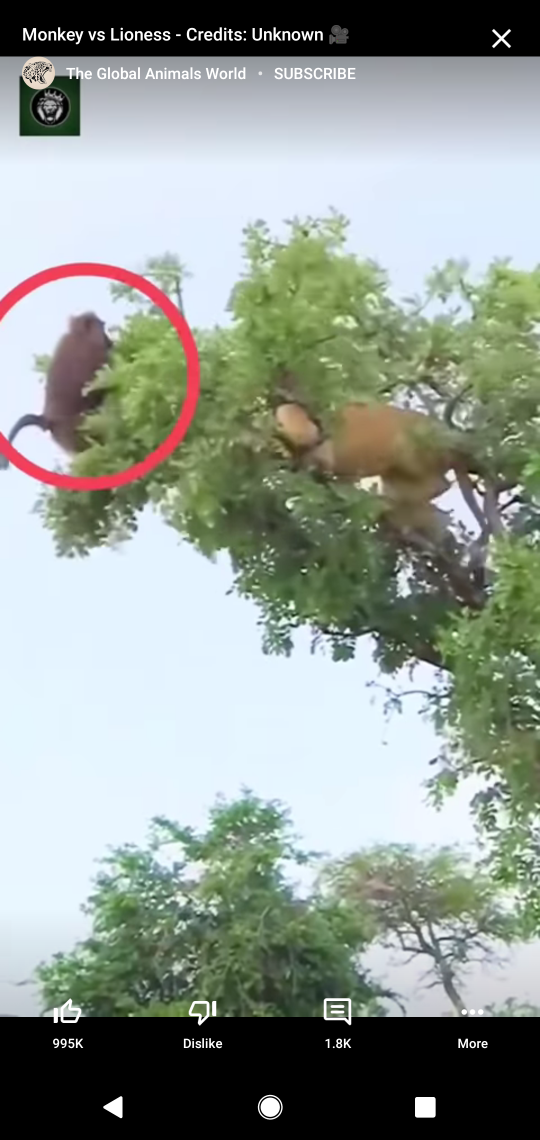
Step 49: drag from (410, 469) to (414, 126)
Your task to perform on an android device: What's the latest video from GameSpot eSports? Image 50: 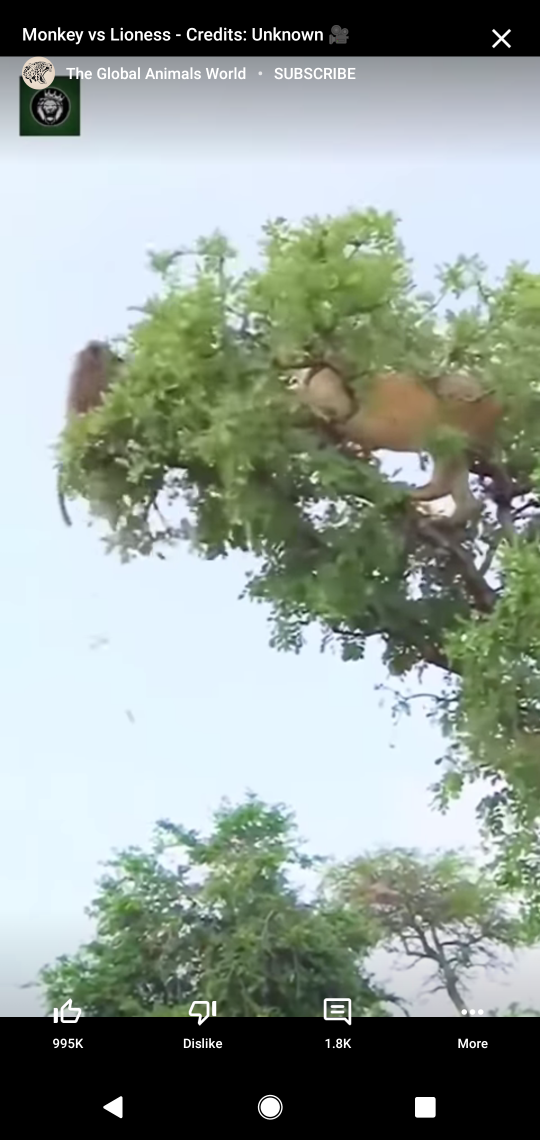
Step 50: drag from (377, 645) to (382, 239)
Your task to perform on an android device: What's the latest video from GameSpot eSports? Image 51: 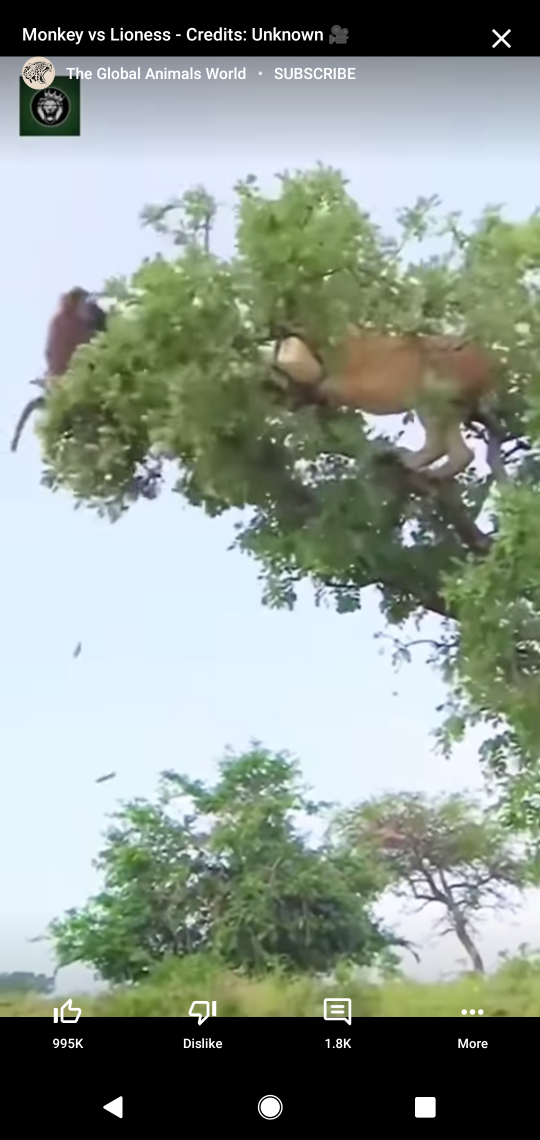
Step 51: drag from (389, 585) to (370, 215)
Your task to perform on an android device: What's the latest video from GameSpot eSports? Image 52: 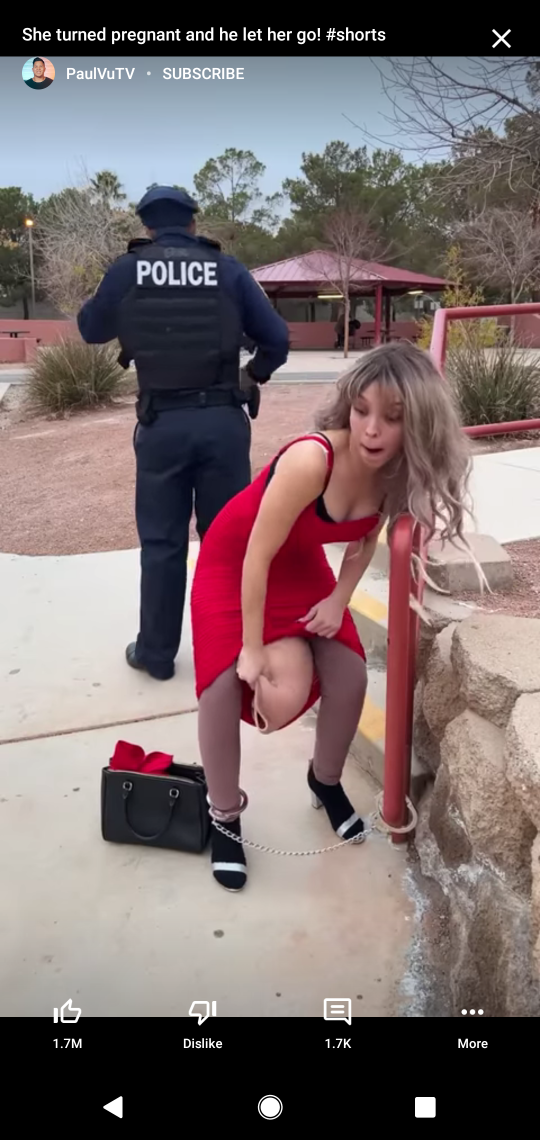
Step 52: press back button
Your task to perform on an android device: What's the latest video from GameSpot eSports? Image 53: 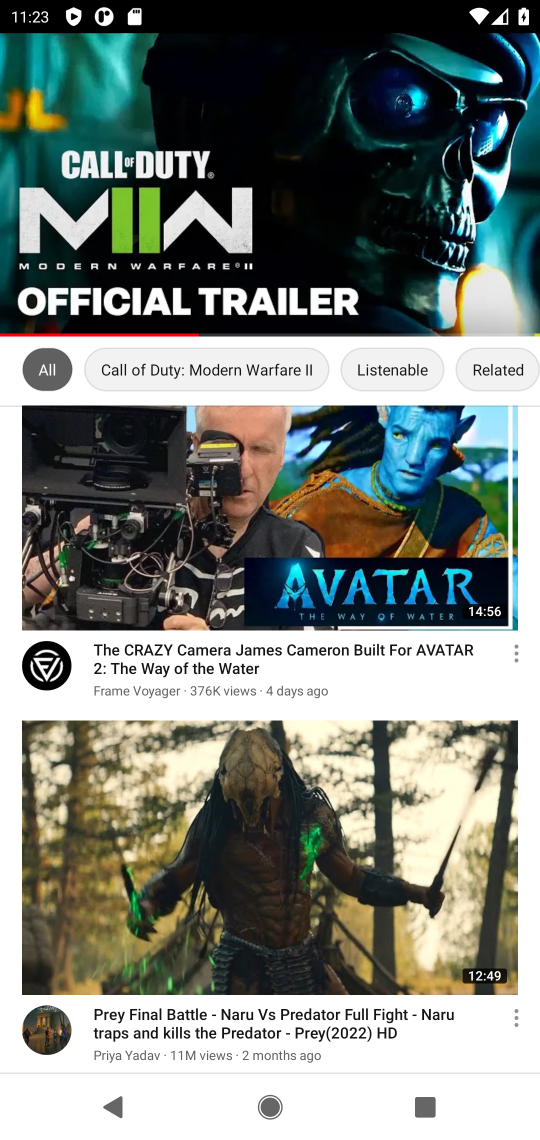
Step 53: click (206, 197)
Your task to perform on an android device: What's the latest video from GameSpot eSports? Image 54: 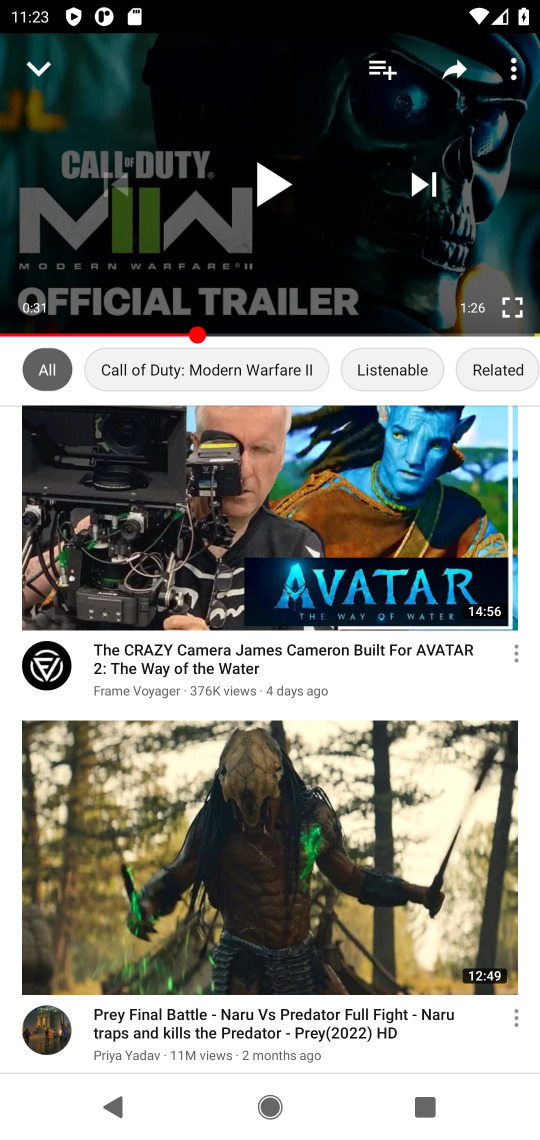
Step 54: click (282, 188)
Your task to perform on an android device: What's the latest video from GameSpot eSports? Image 55: 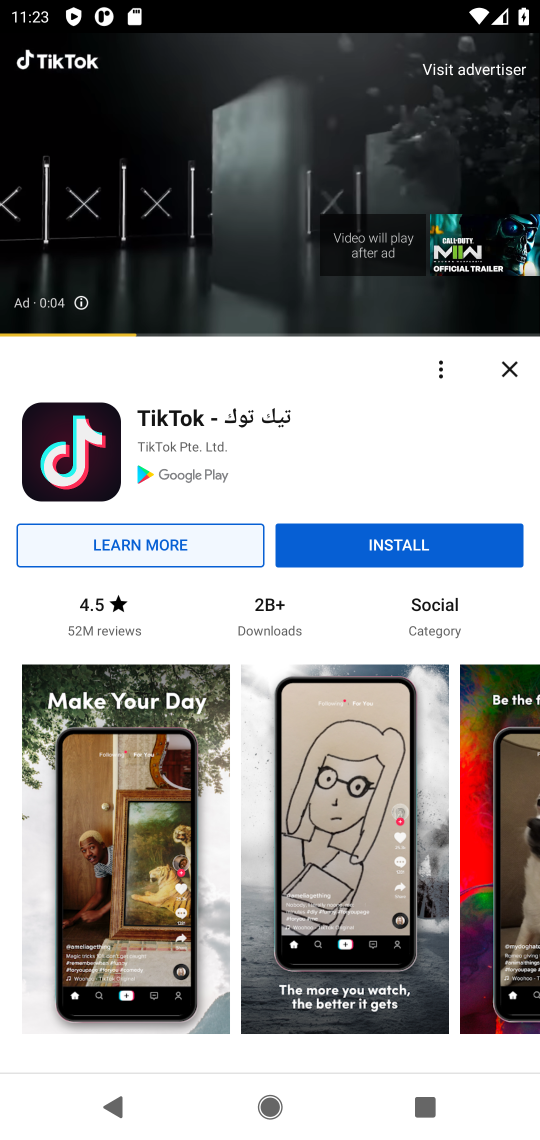
Step 55: task complete